Your task to perform on an android device: Google the capital of Chile Image 0: 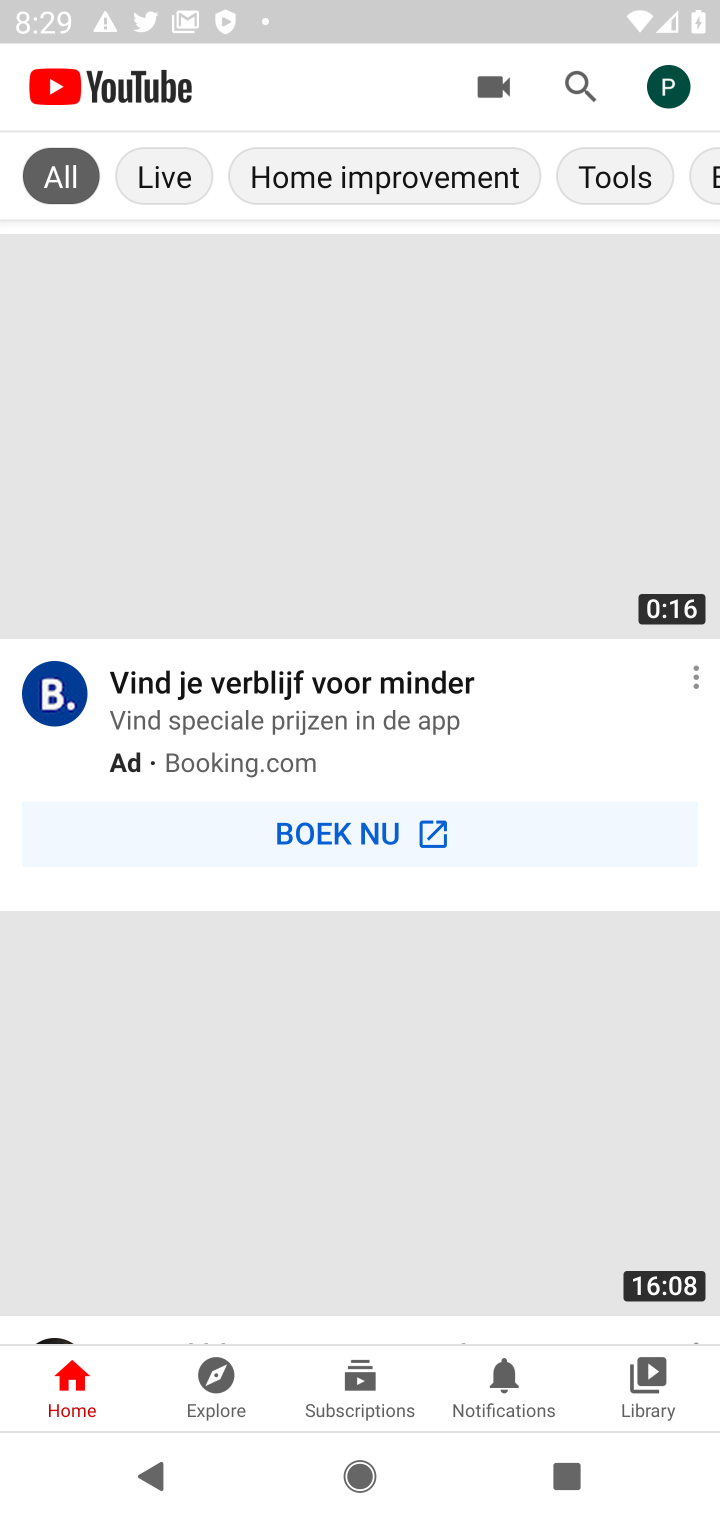
Step 0: press home button
Your task to perform on an android device: Google the capital of Chile Image 1: 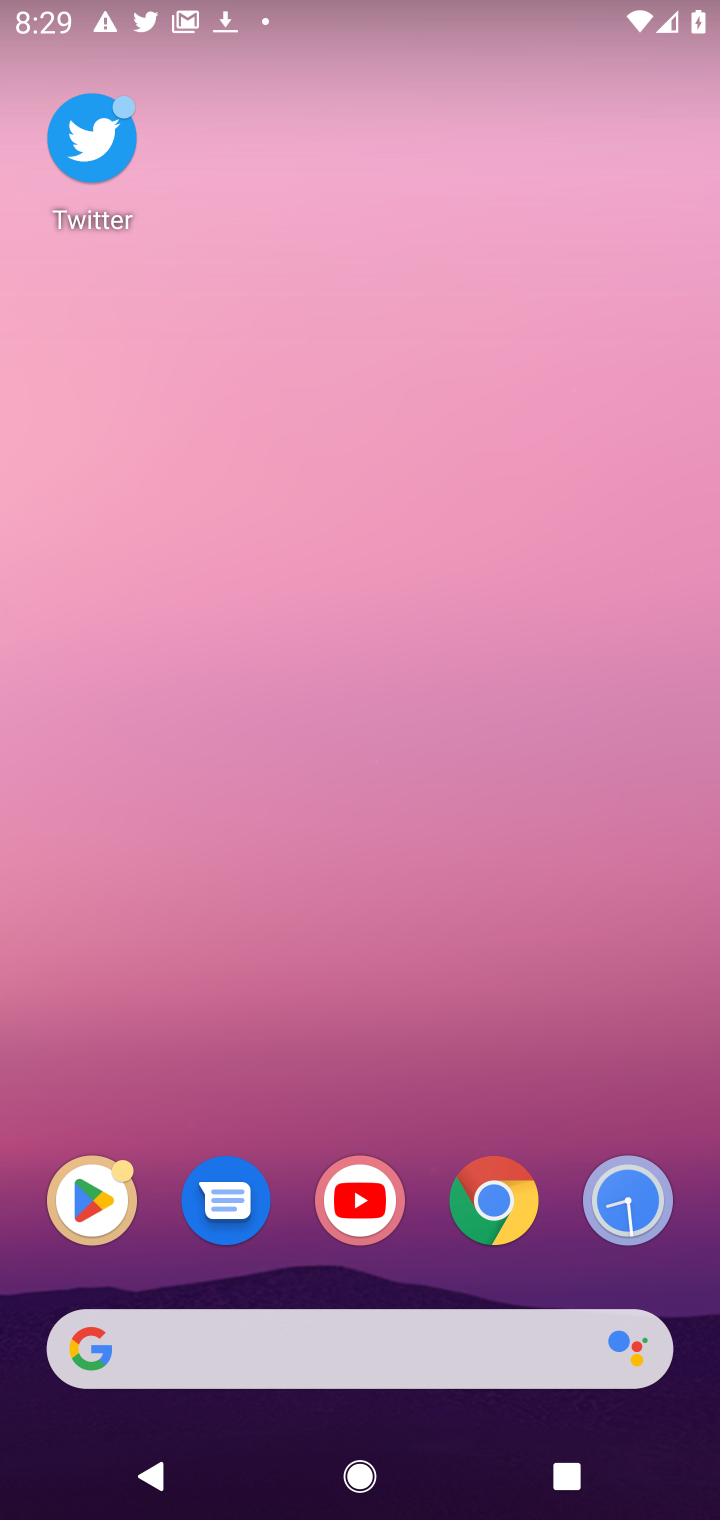
Step 1: click (505, 1200)
Your task to perform on an android device: Google the capital of Chile Image 2: 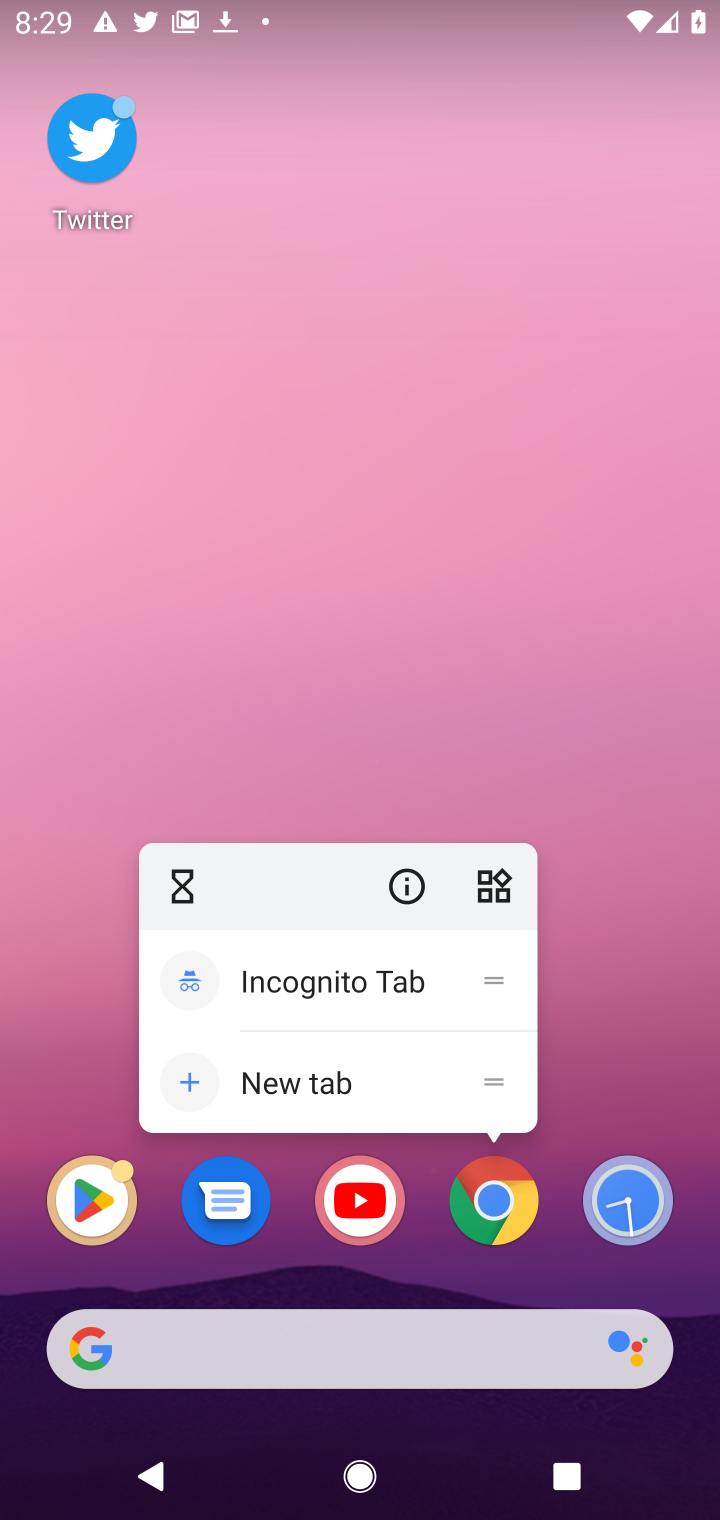
Step 2: click (505, 1200)
Your task to perform on an android device: Google the capital of Chile Image 3: 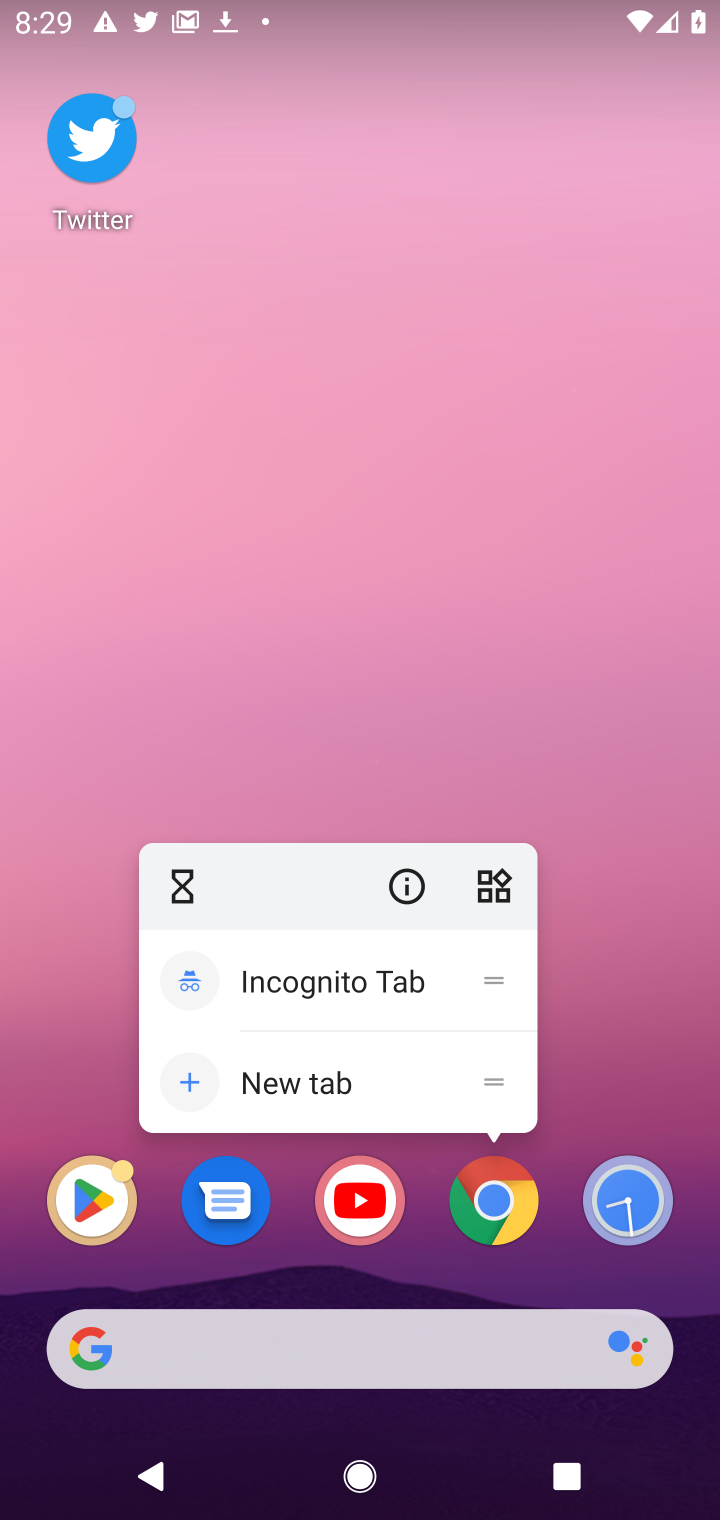
Step 3: click (505, 1198)
Your task to perform on an android device: Google the capital of Chile Image 4: 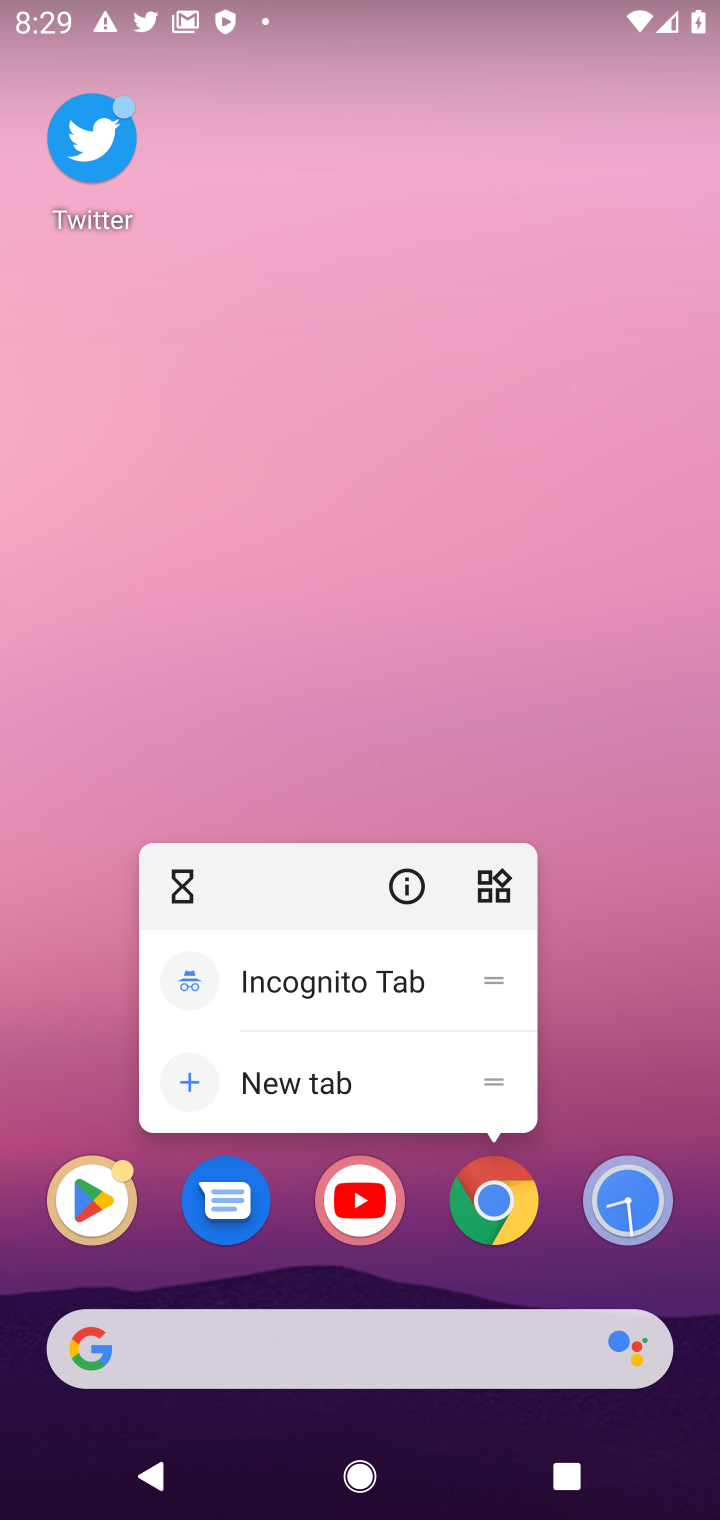
Step 4: click (293, 1081)
Your task to perform on an android device: Google the capital of Chile Image 5: 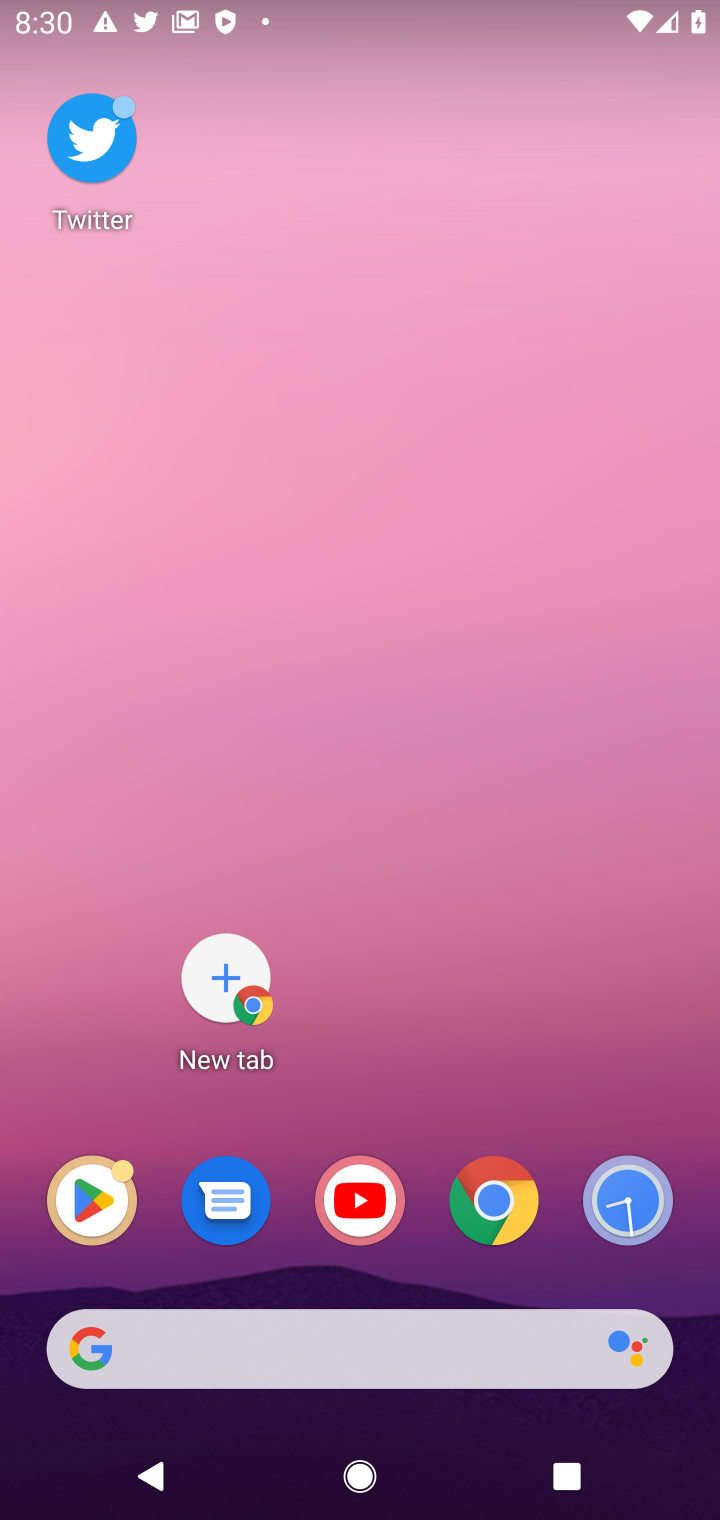
Step 5: click (228, 974)
Your task to perform on an android device: Google the capital of Chile Image 6: 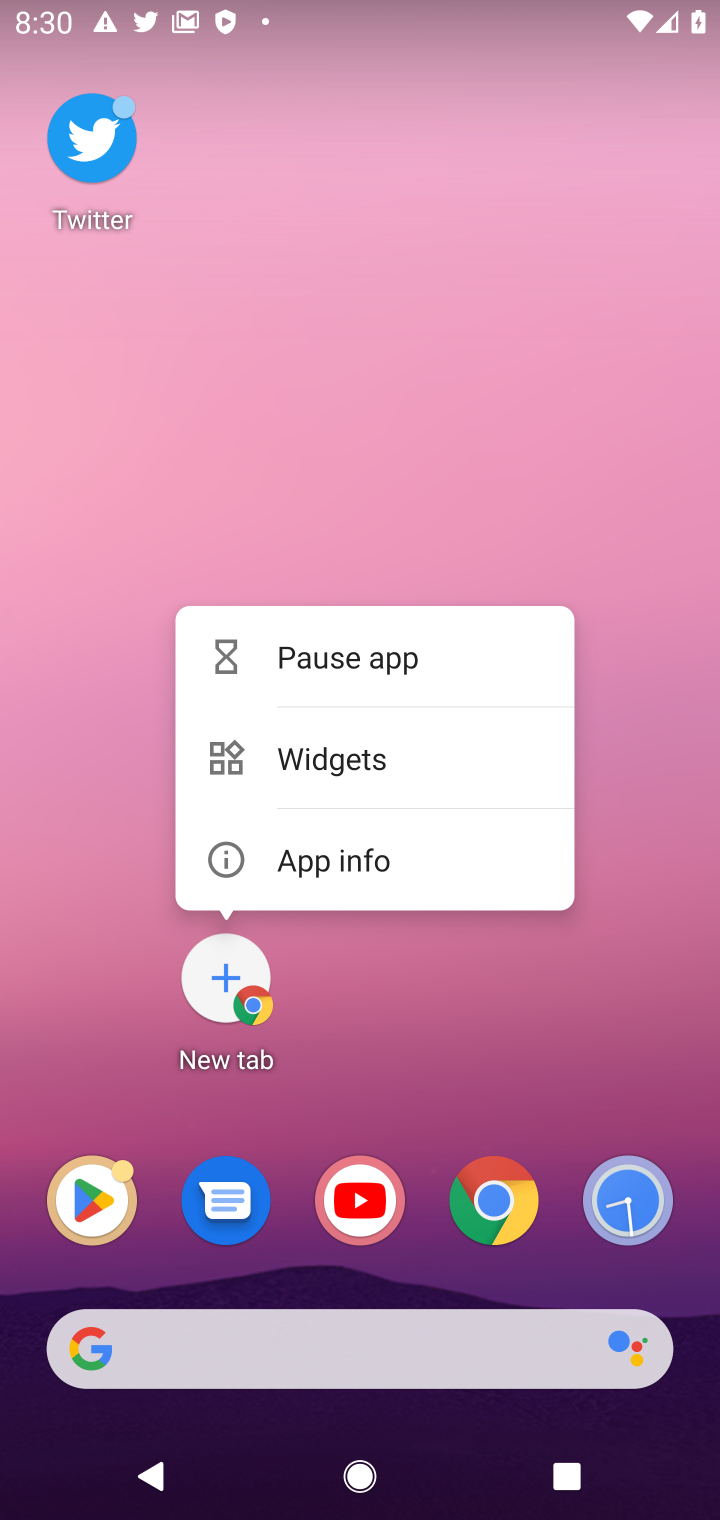
Step 6: click (679, 718)
Your task to perform on an android device: Google the capital of Chile Image 7: 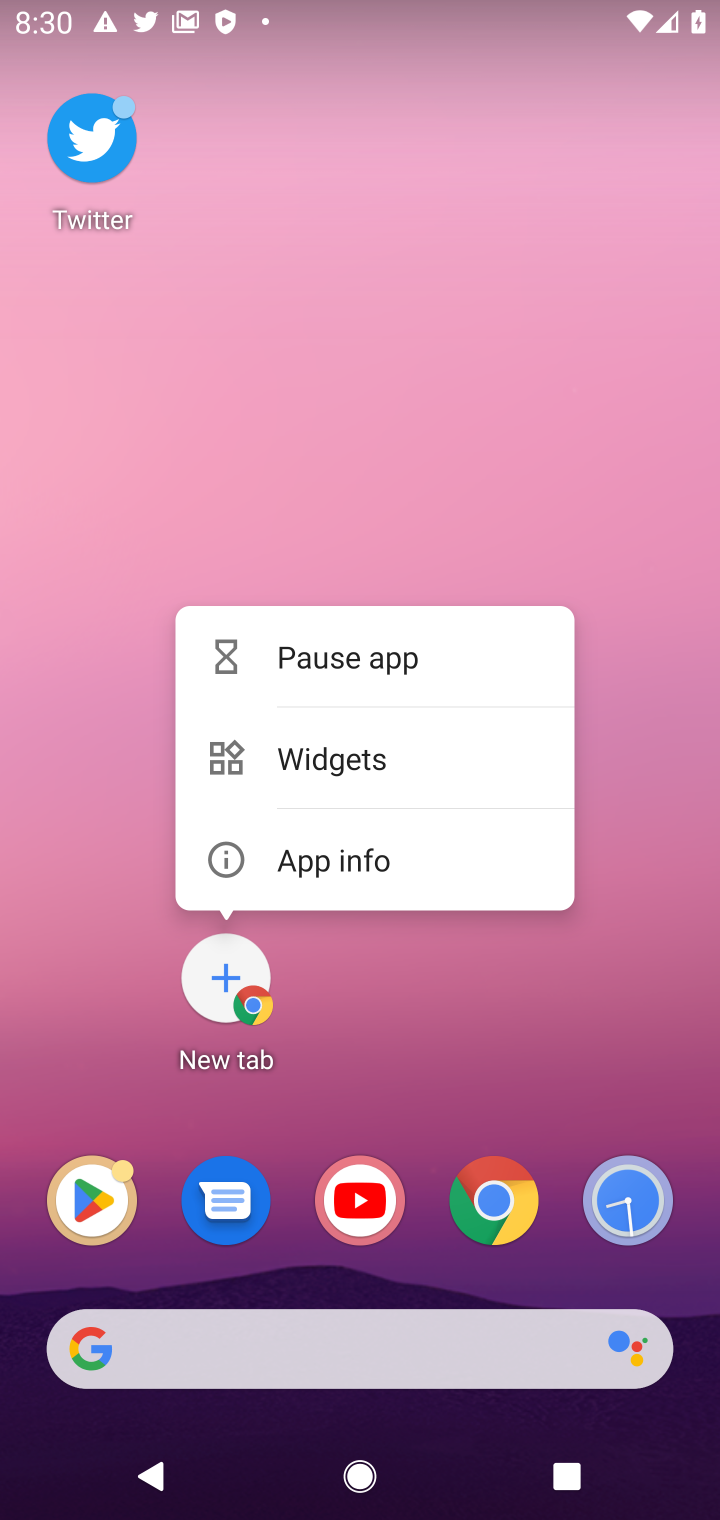
Step 7: click (510, 1194)
Your task to perform on an android device: Google the capital of Chile Image 8: 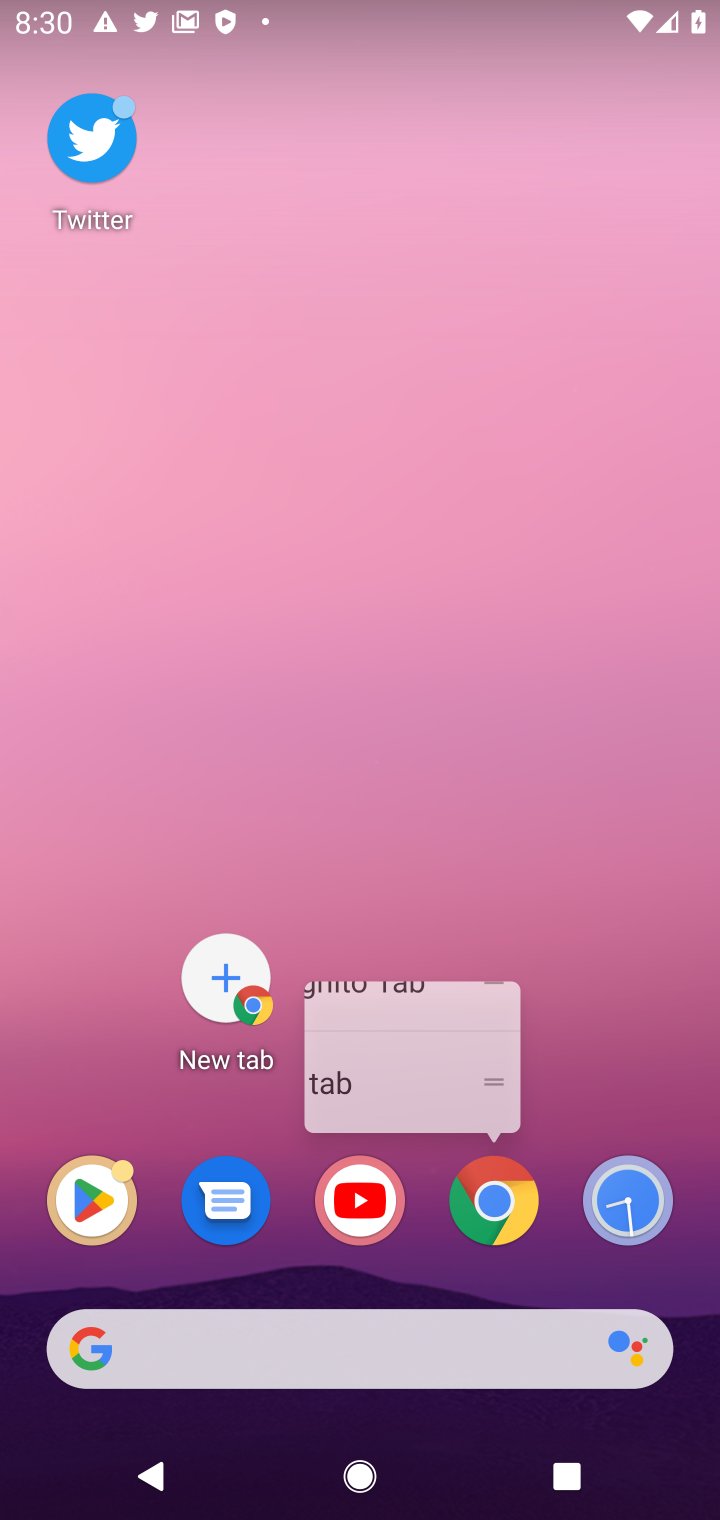
Step 8: click (501, 1206)
Your task to perform on an android device: Google the capital of Chile Image 9: 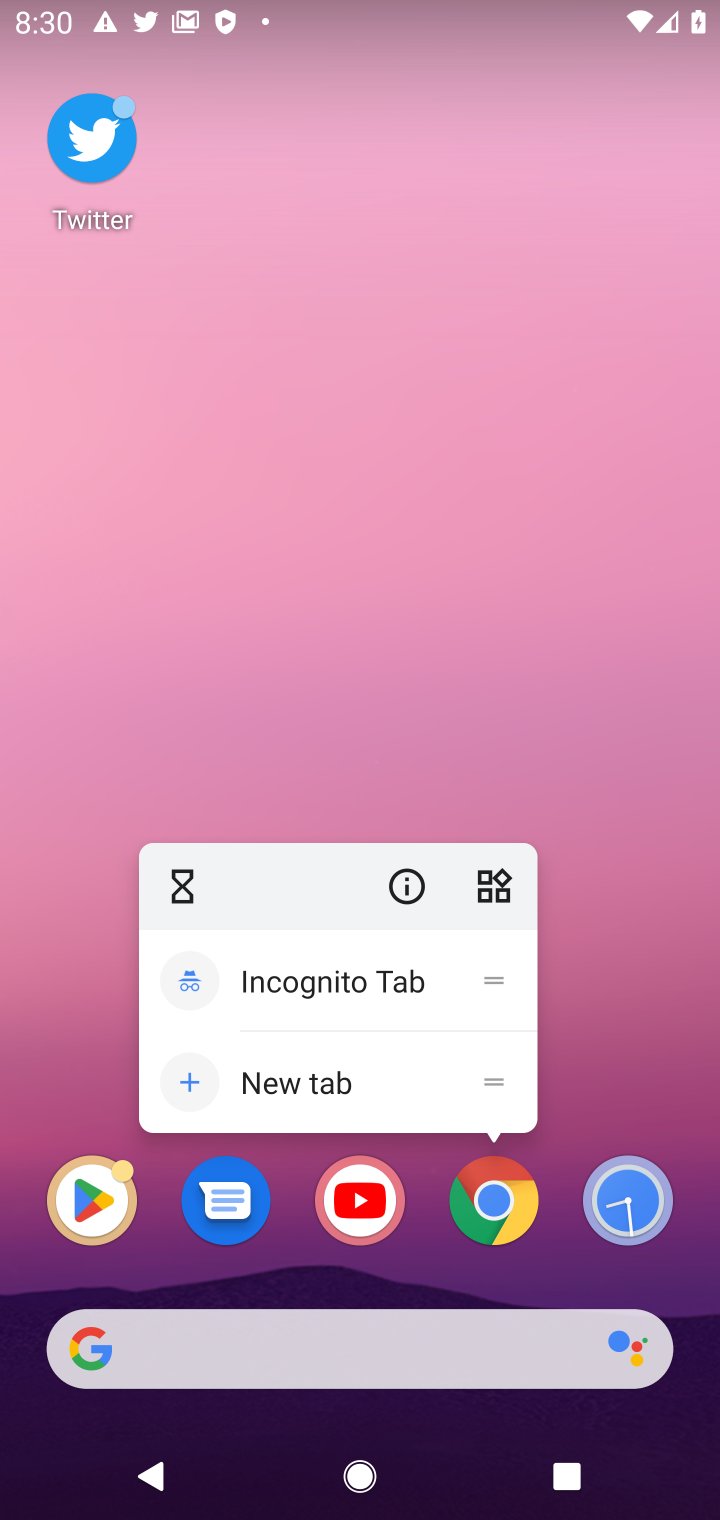
Step 9: drag from (361, 1303) to (468, 522)
Your task to perform on an android device: Google the capital of Chile Image 10: 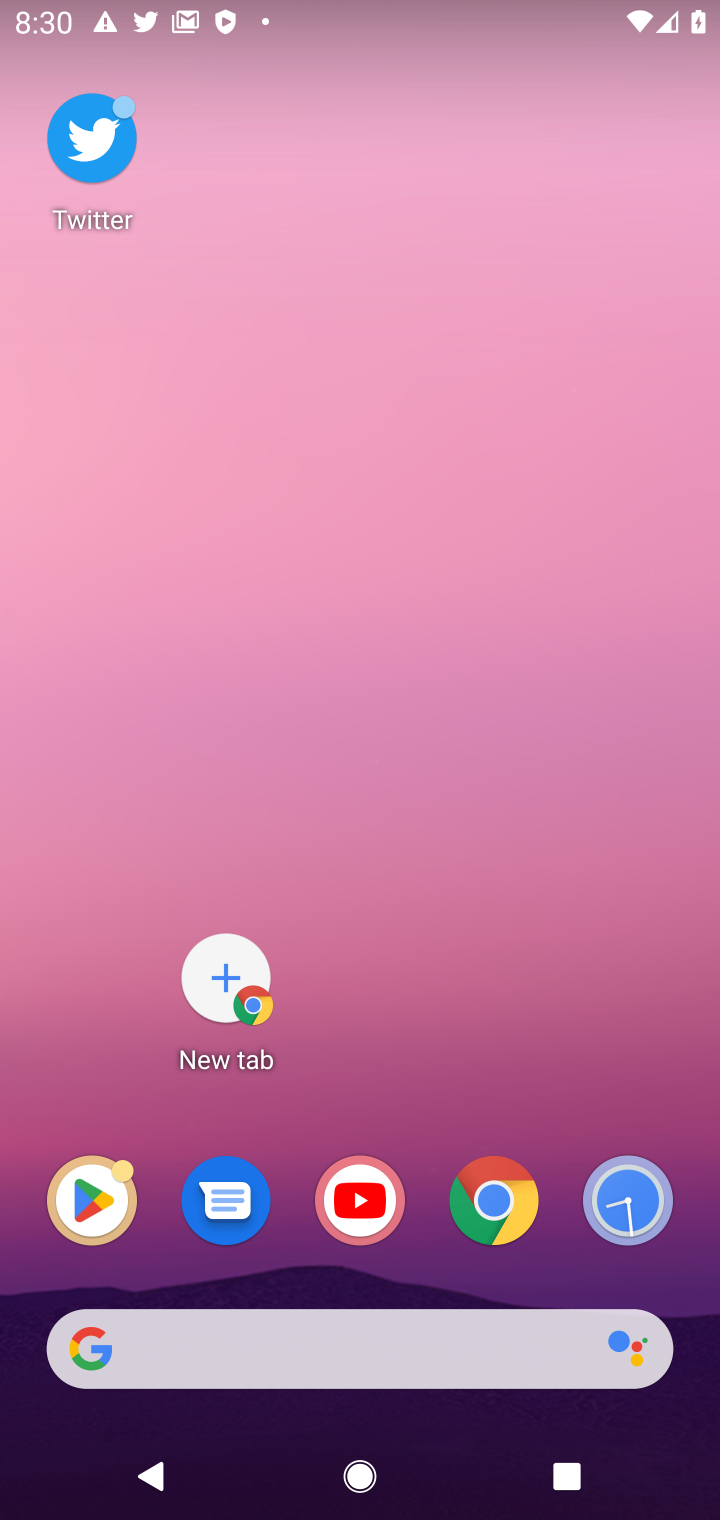
Step 10: click (500, 1190)
Your task to perform on an android device: Google the capital of Chile Image 11: 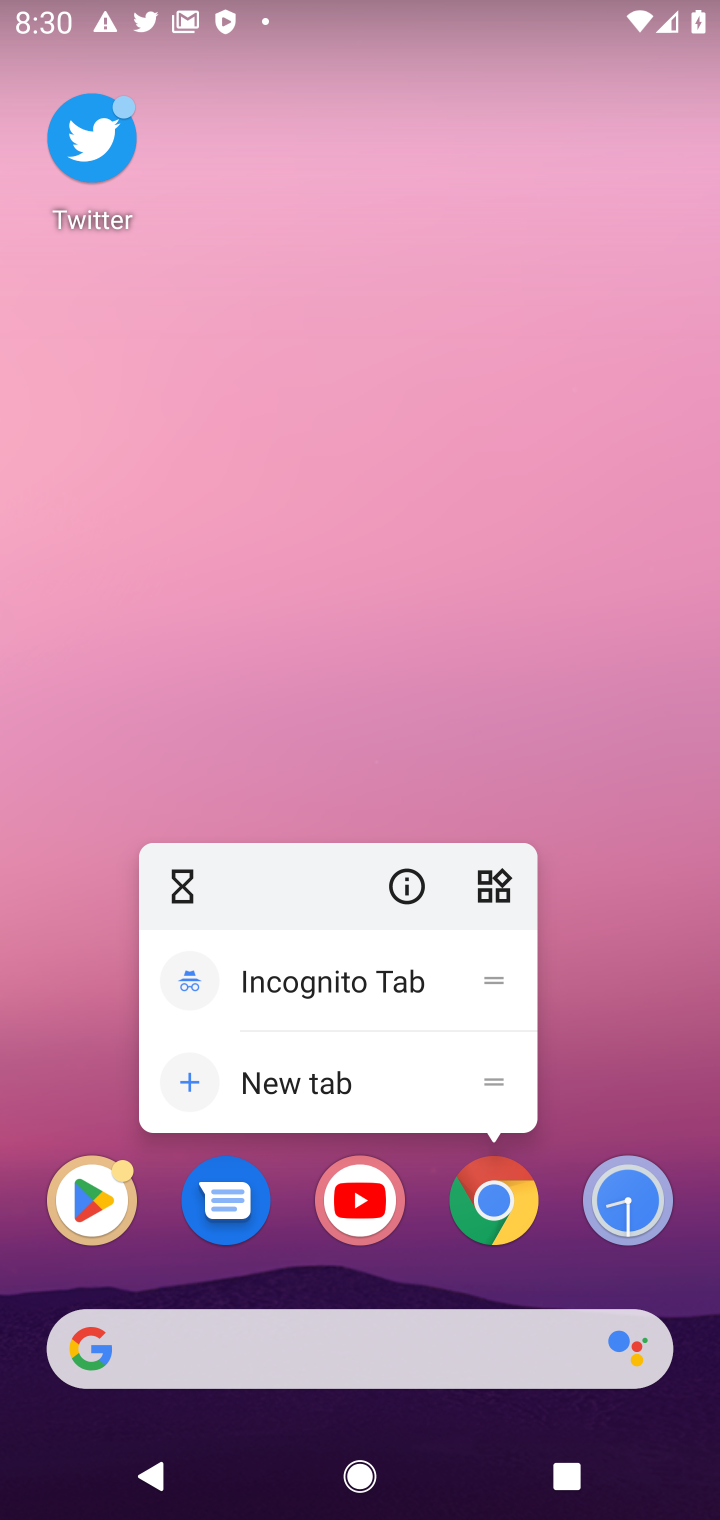
Step 11: click (538, 584)
Your task to perform on an android device: Google the capital of Chile Image 12: 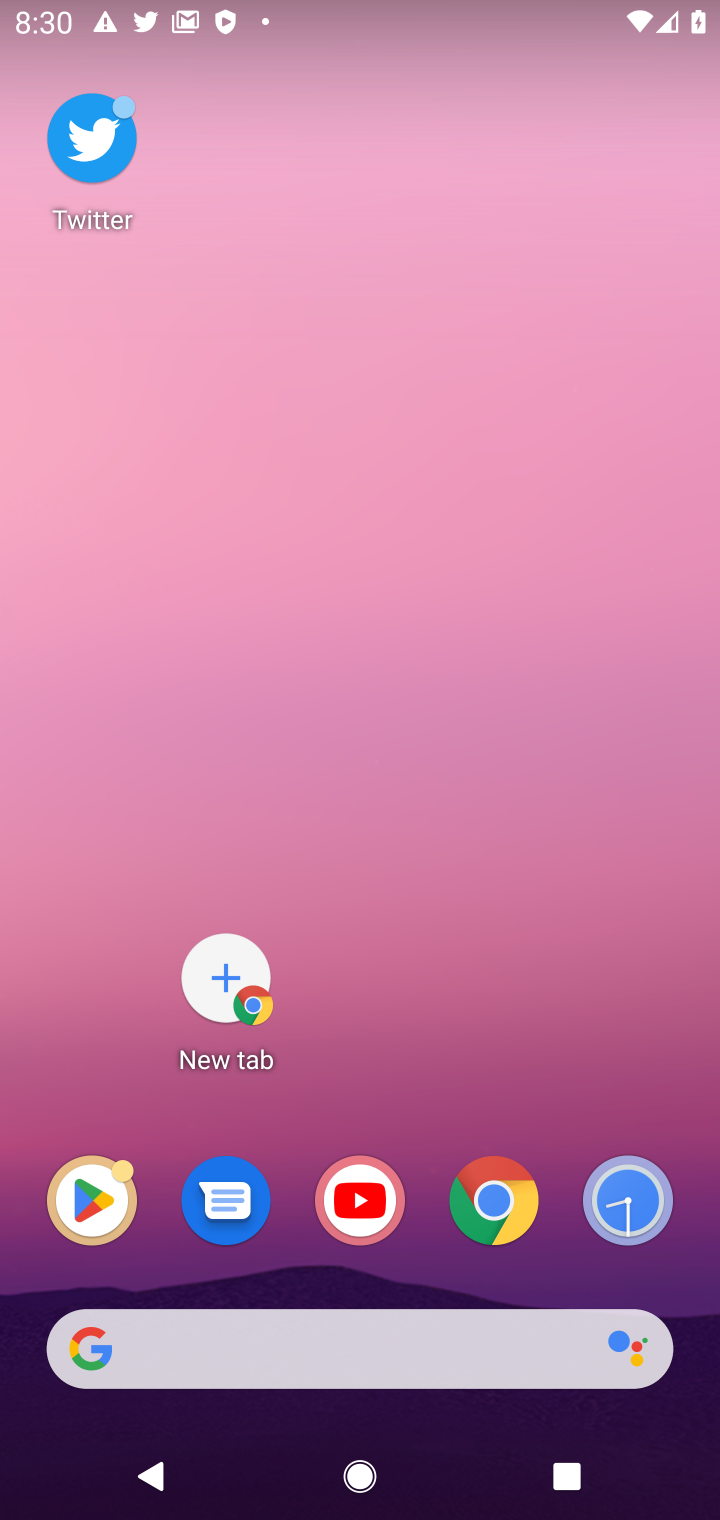
Step 12: click (516, 1191)
Your task to perform on an android device: Google the capital of Chile Image 13: 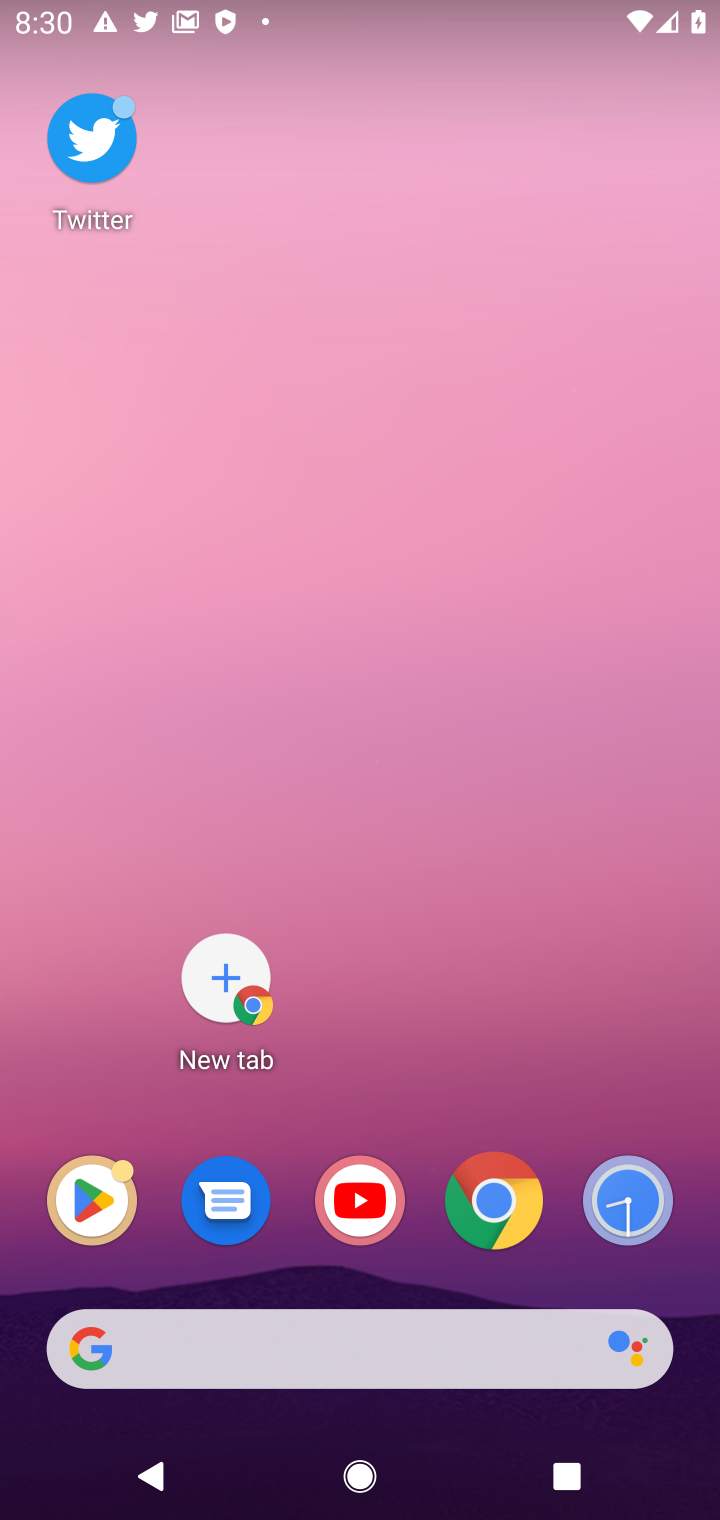
Step 13: click (516, 1191)
Your task to perform on an android device: Google the capital of Chile Image 14: 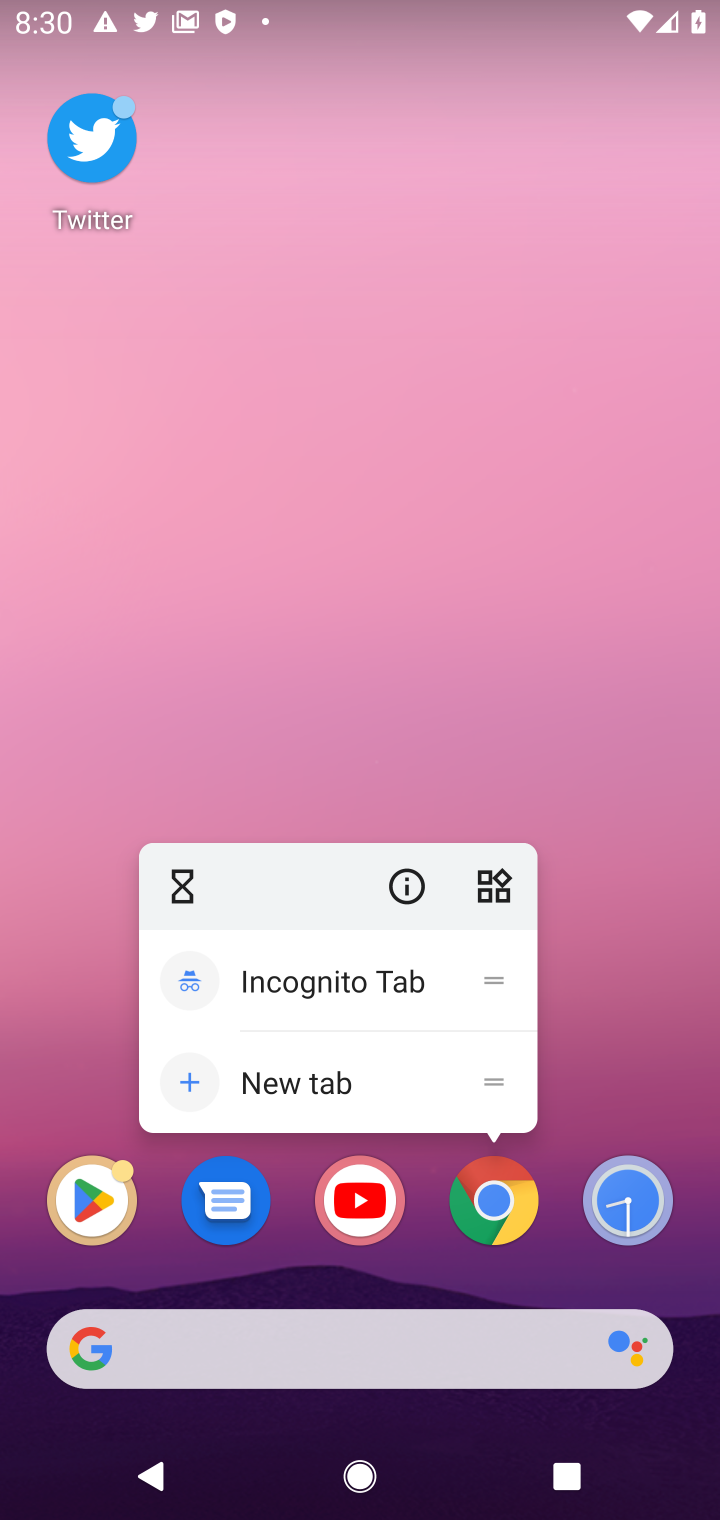
Step 14: click (492, 1190)
Your task to perform on an android device: Google the capital of Chile Image 15: 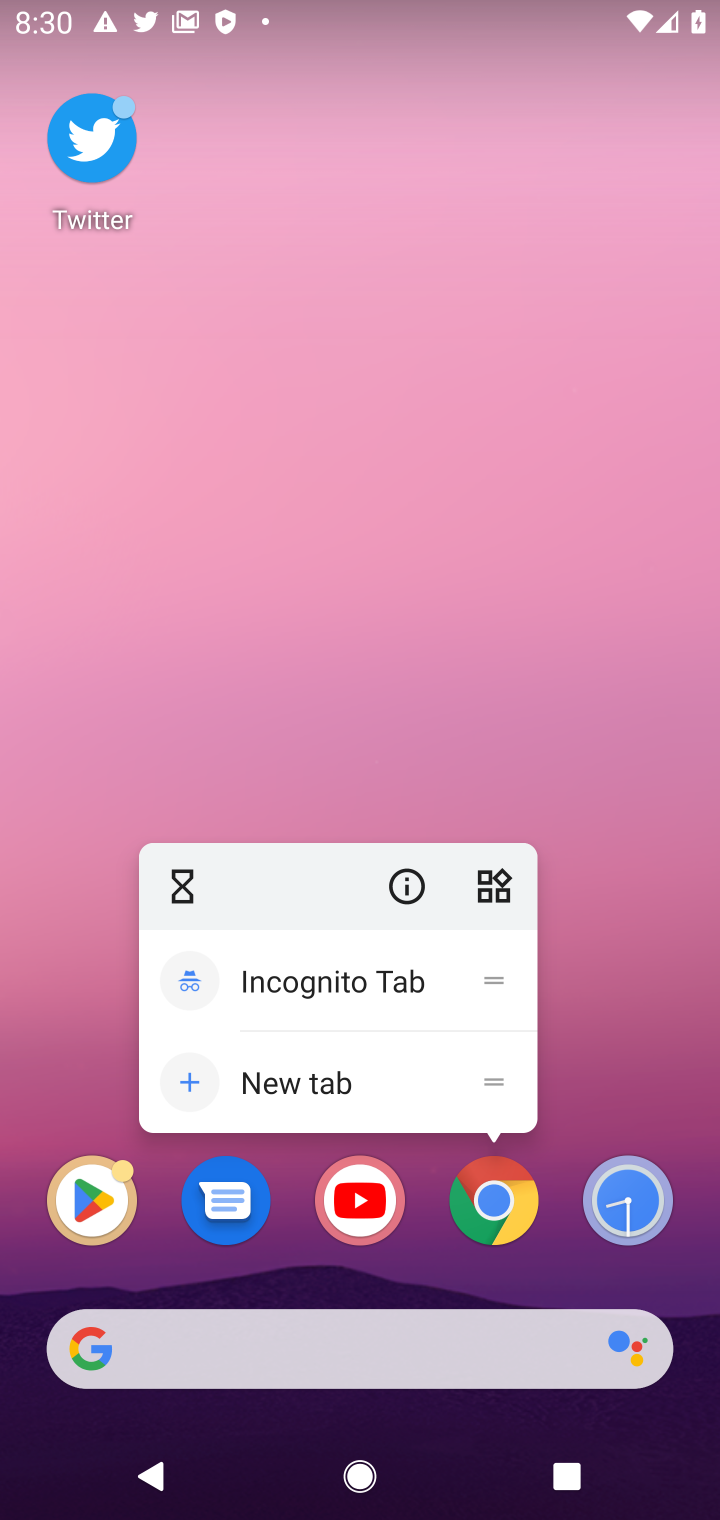
Step 15: click (684, 932)
Your task to perform on an android device: Google the capital of Chile Image 16: 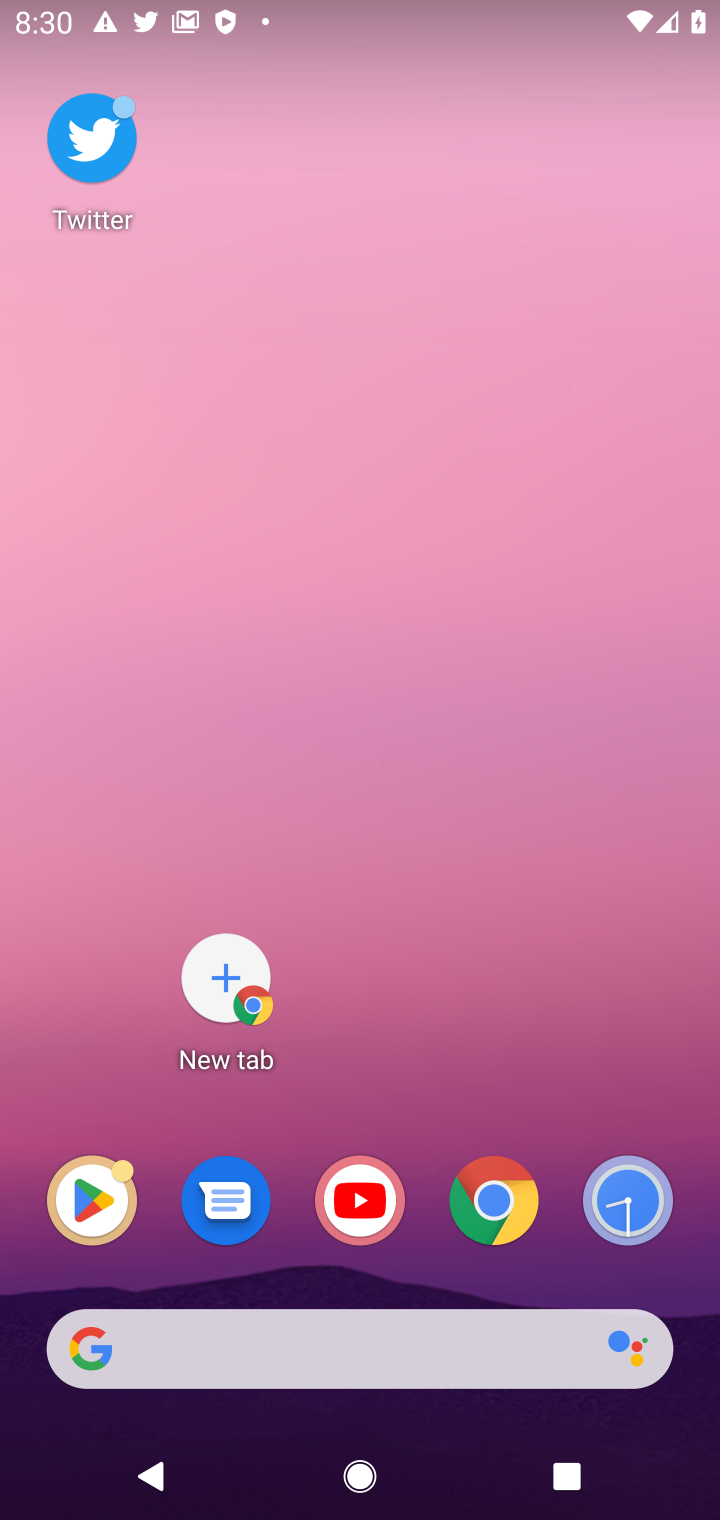
Step 16: click (482, 1209)
Your task to perform on an android device: Google the capital of Chile Image 17: 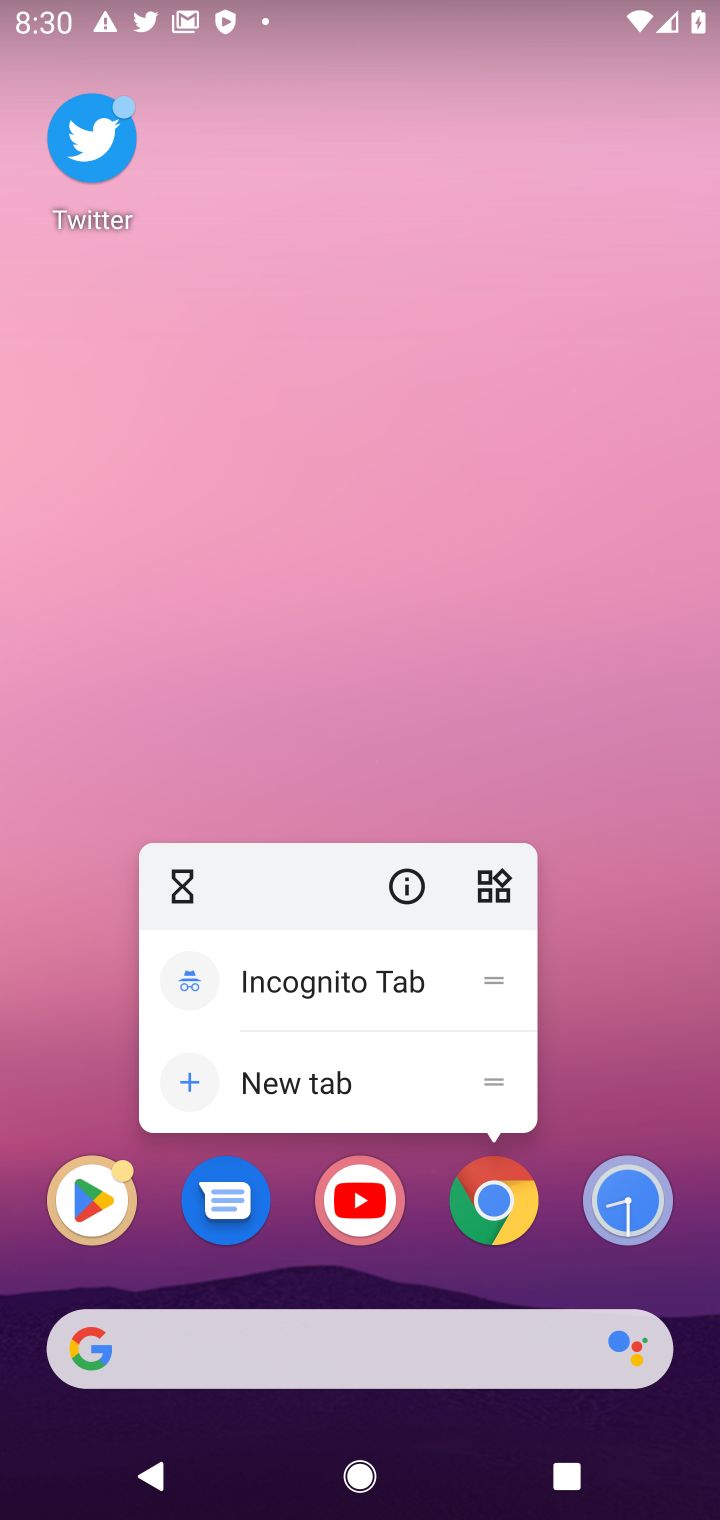
Step 17: click (487, 1202)
Your task to perform on an android device: Google the capital of Chile Image 18: 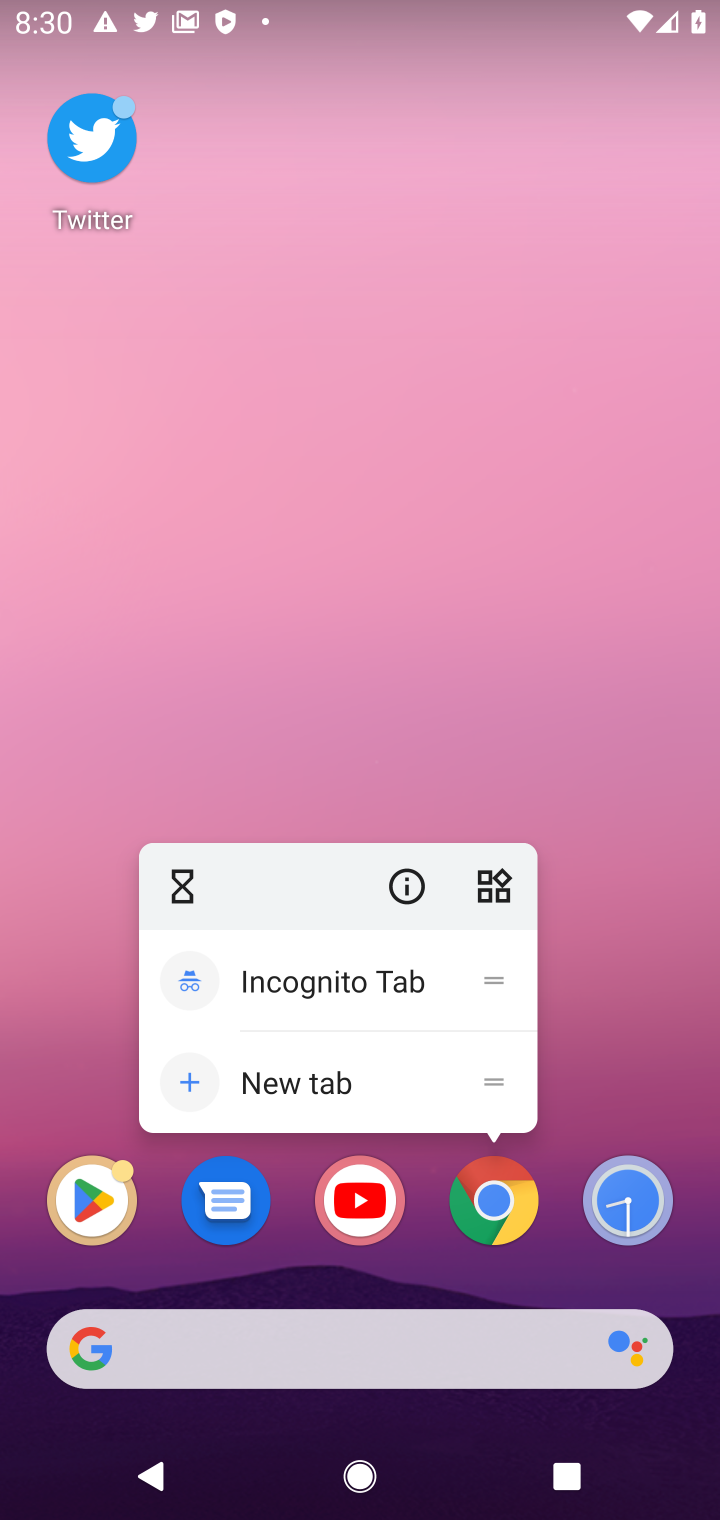
Step 18: click (301, 1082)
Your task to perform on an android device: Google the capital of Chile Image 19: 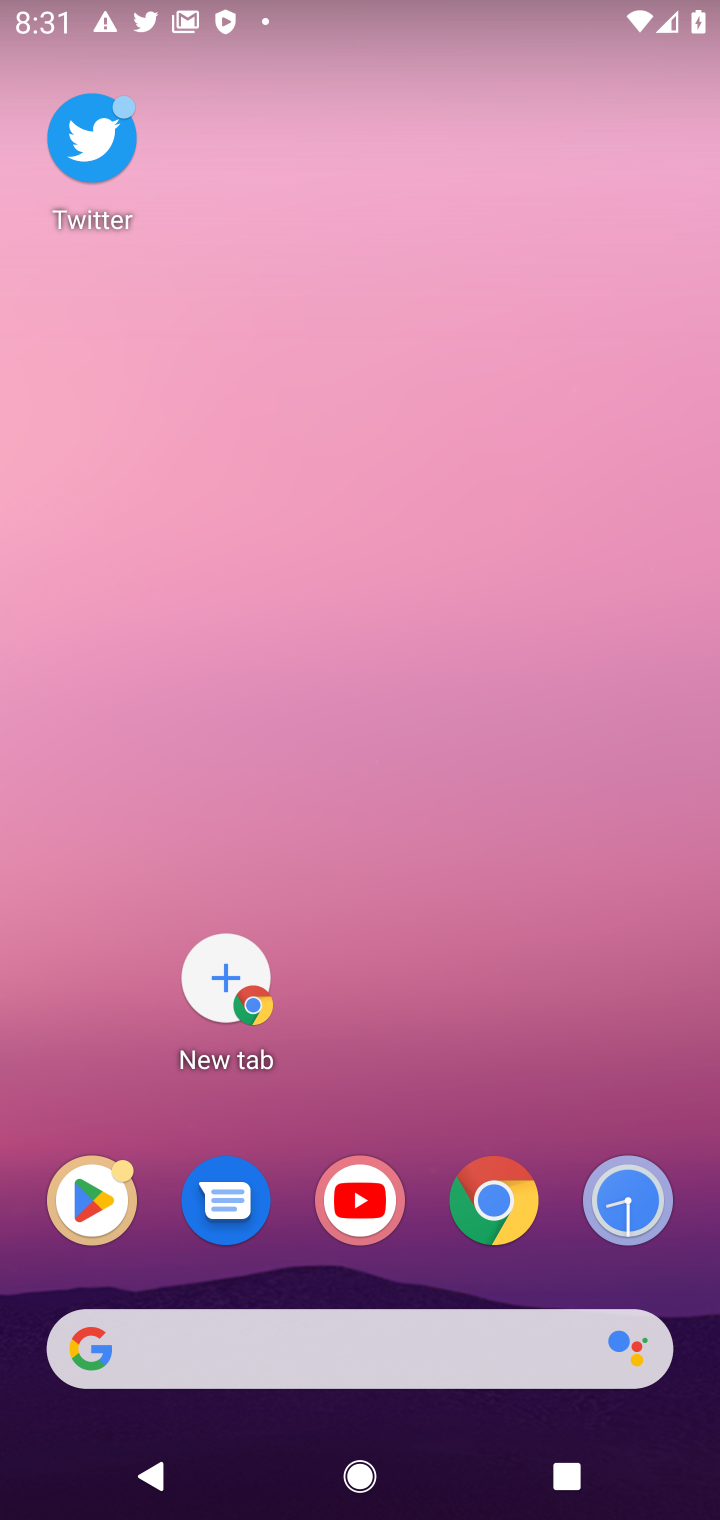
Step 19: click (482, 1195)
Your task to perform on an android device: Google the capital of Chile Image 20: 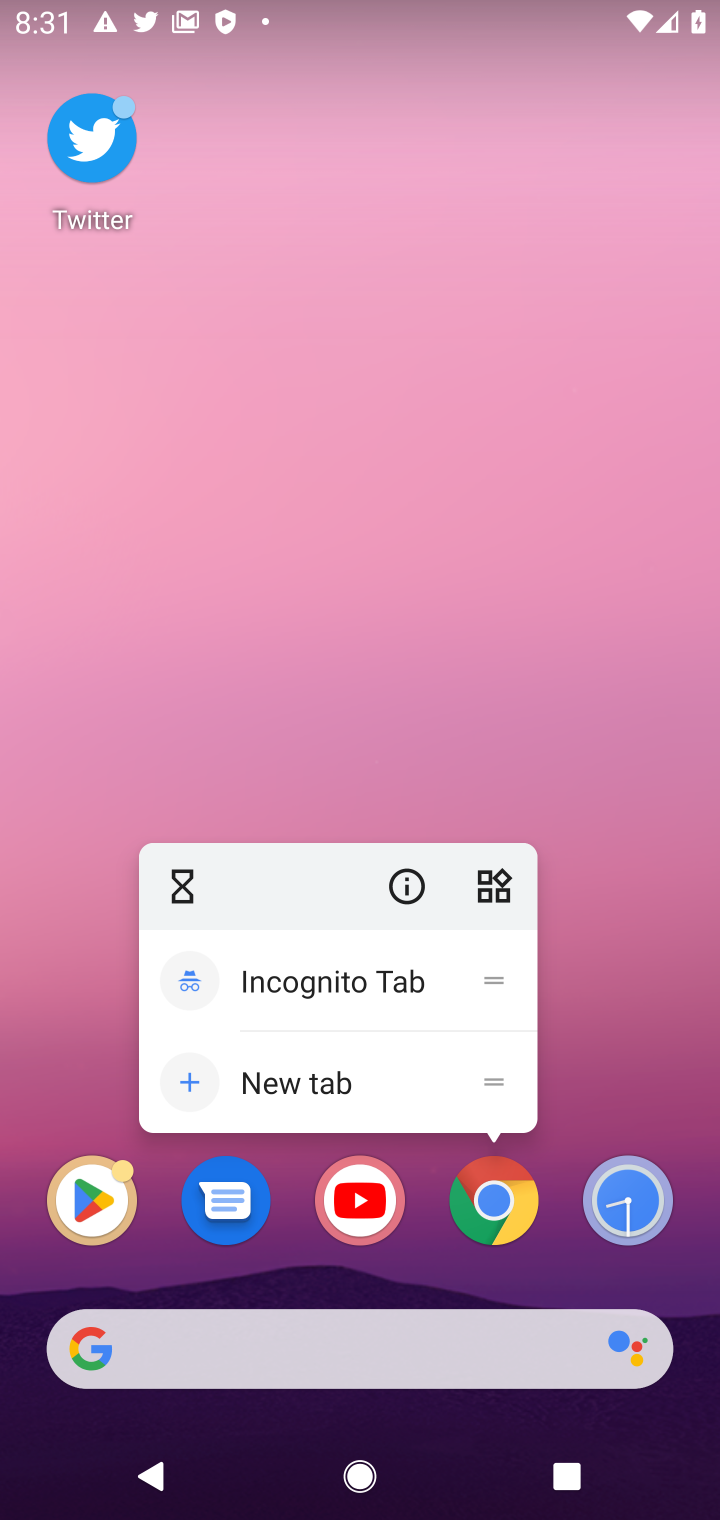
Step 20: click (184, 1079)
Your task to perform on an android device: Google the capital of Chile Image 21: 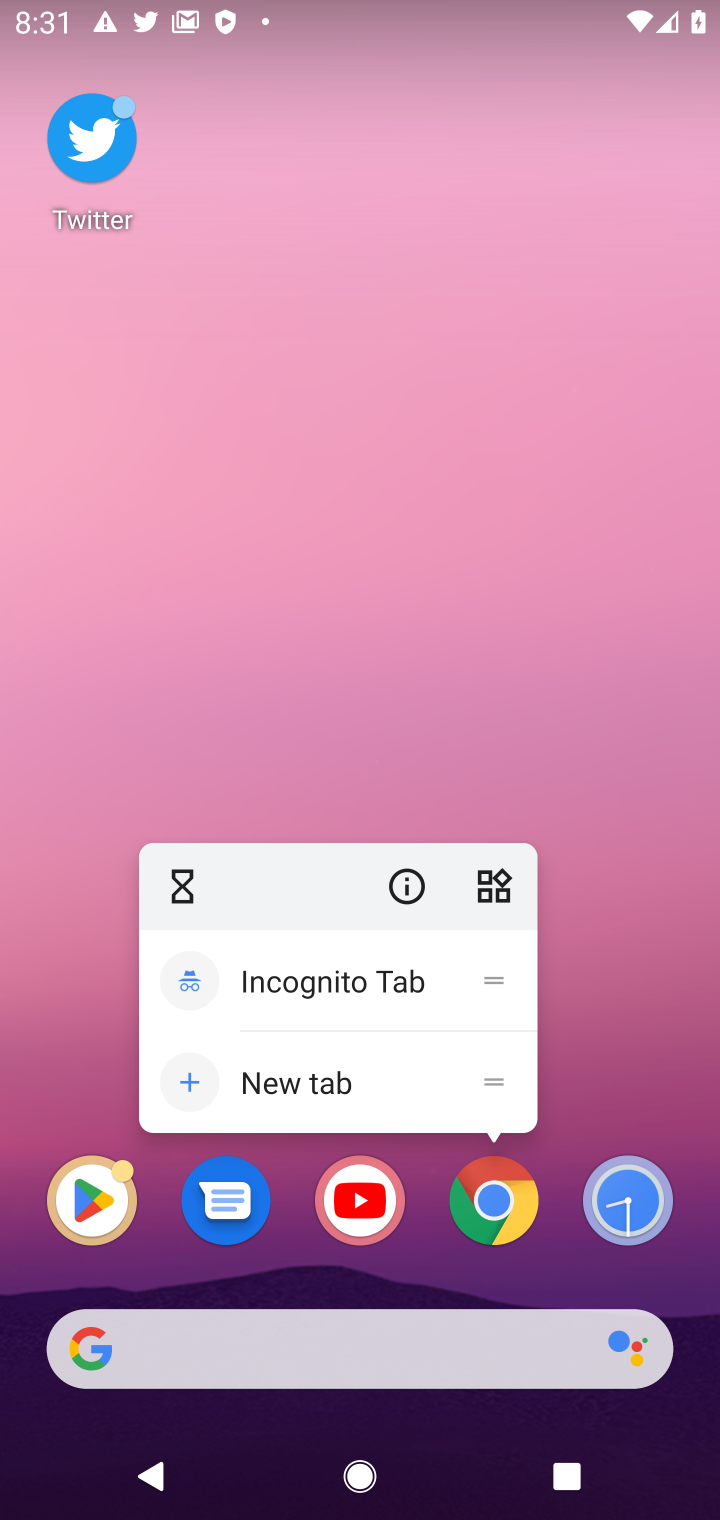
Step 21: click (190, 1087)
Your task to perform on an android device: Google the capital of Chile Image 22: 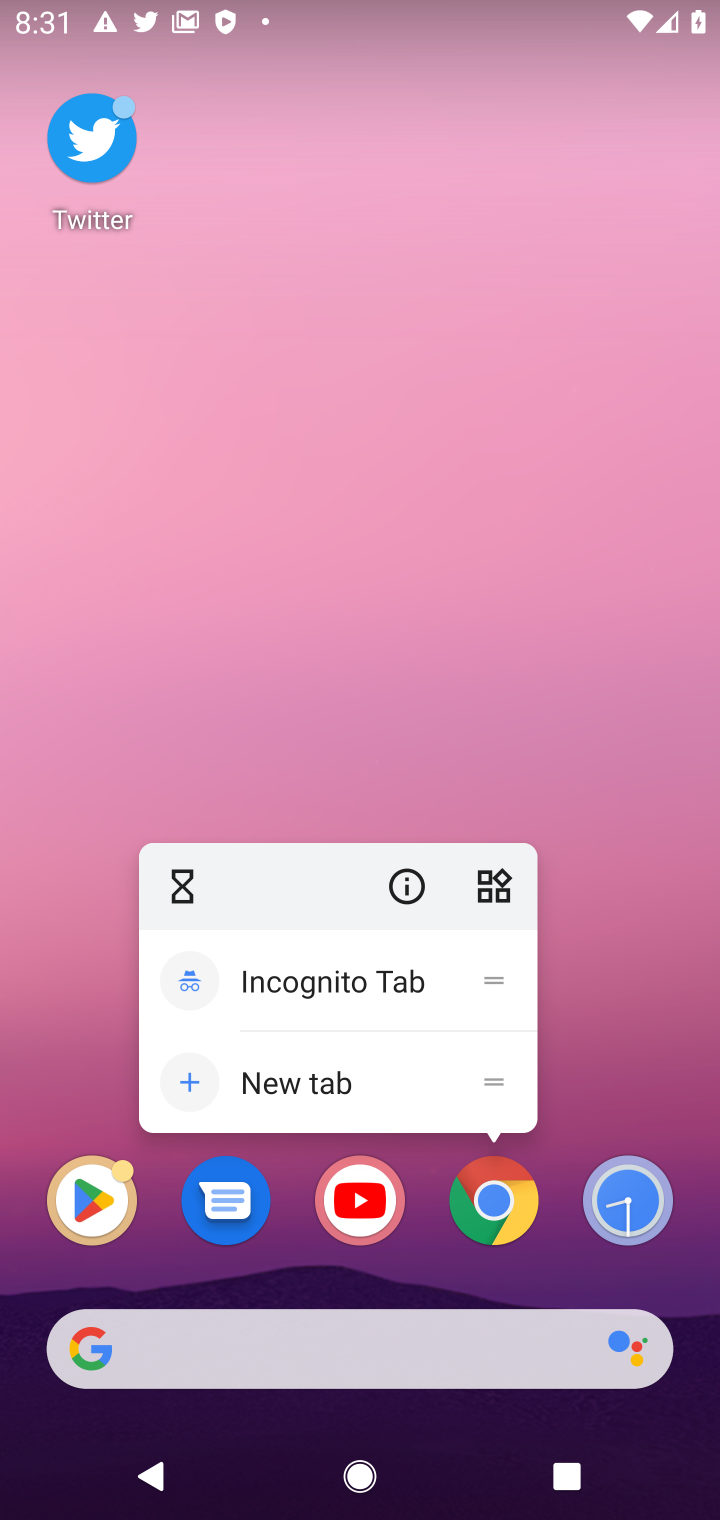
Step 22: click (484, 1220)
Your task to perform on an android device: Google the capital of Chile Image 23: 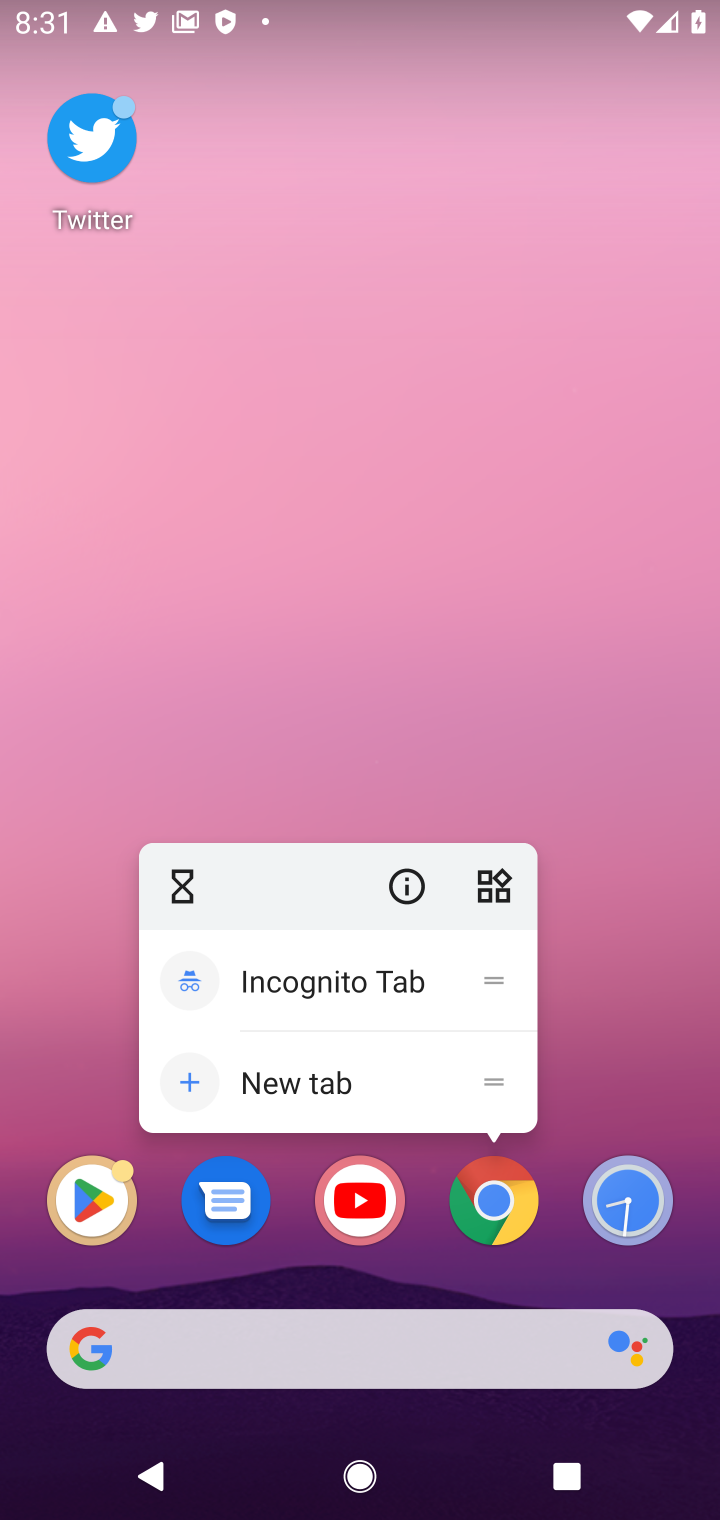
Step 23: drag from (528, 293) to (679, 752)
Your task to perform on an android device: Google the capital of Chile Image 24: 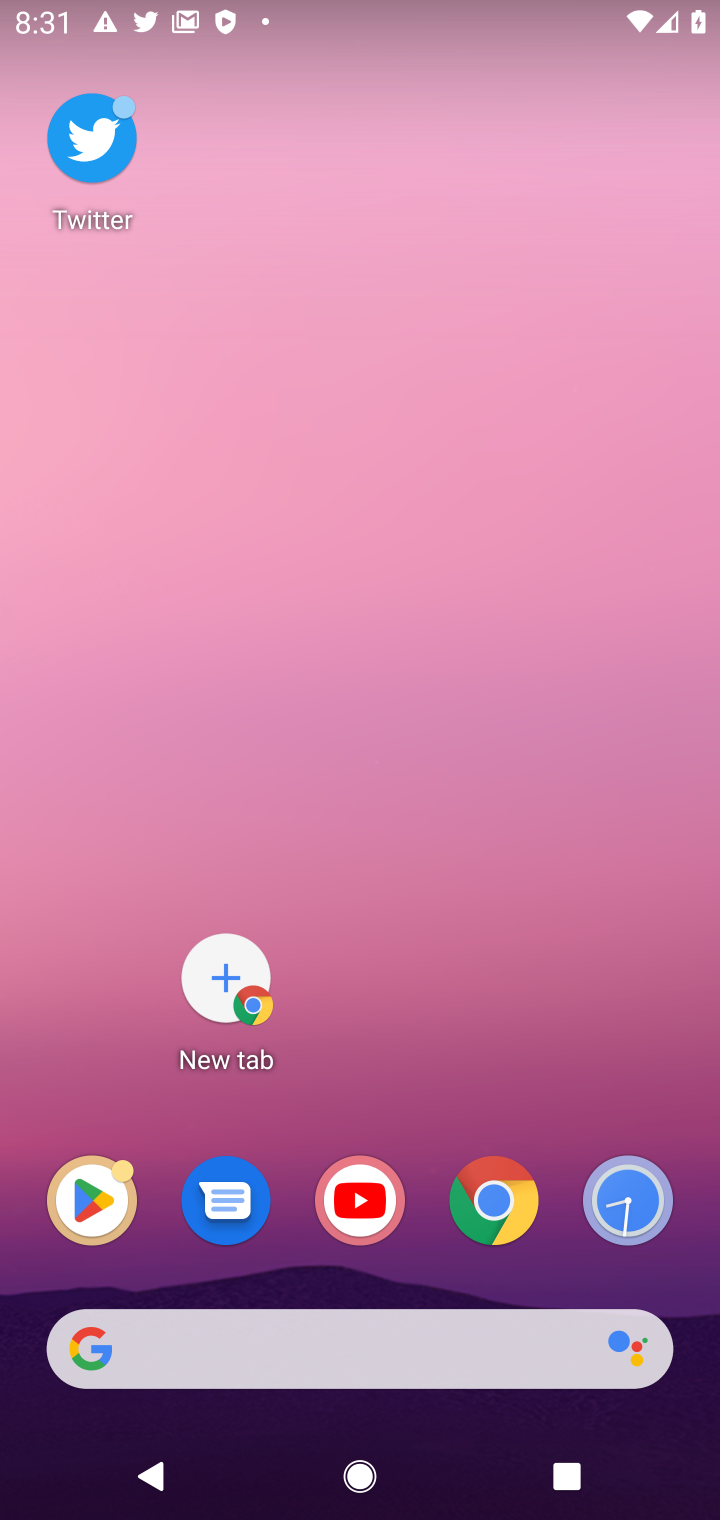
Step 24: click (515, 1189)
Your task to perform on an android device: Google the capital of Chile Image 25: 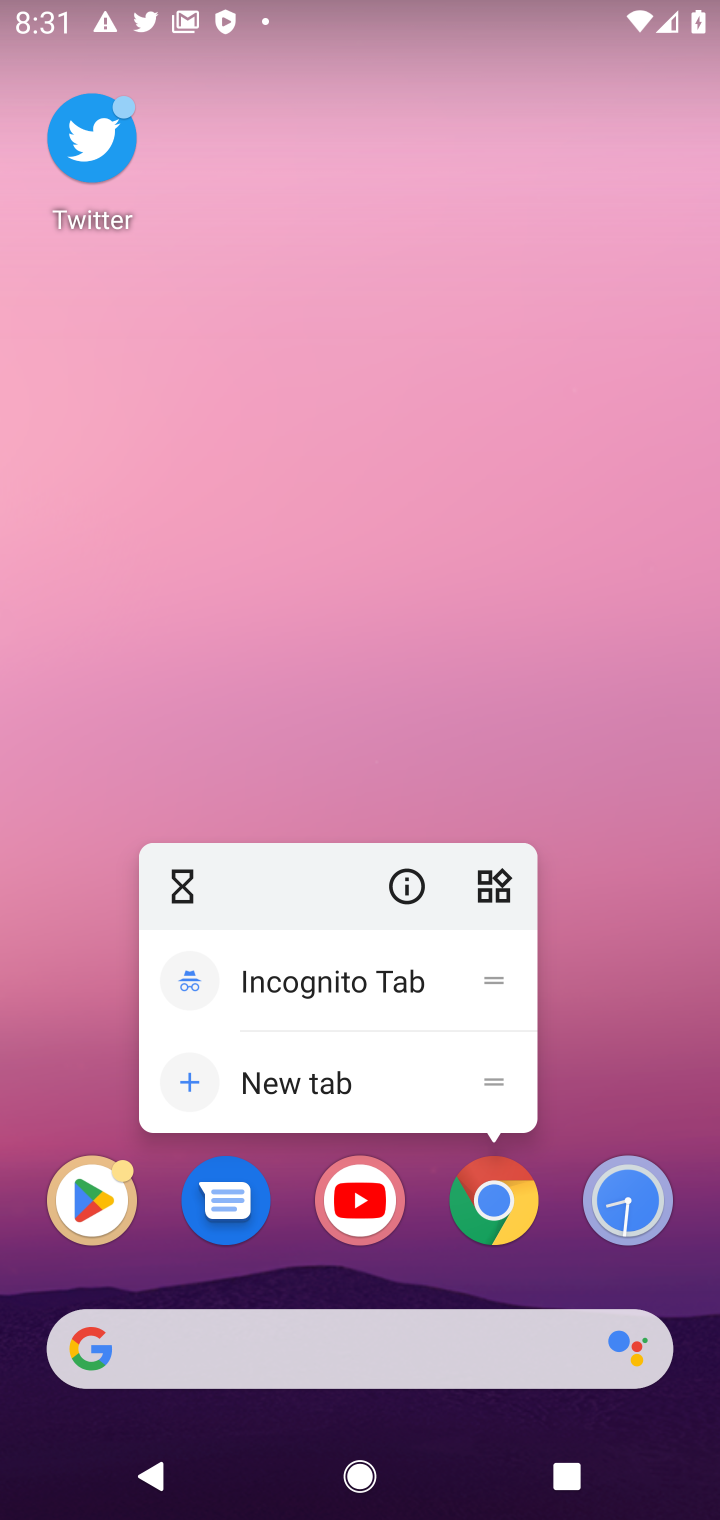
Step 25: click (283, 1098)
Your task to perform on an android device: Google the capital of Chile Image 26: 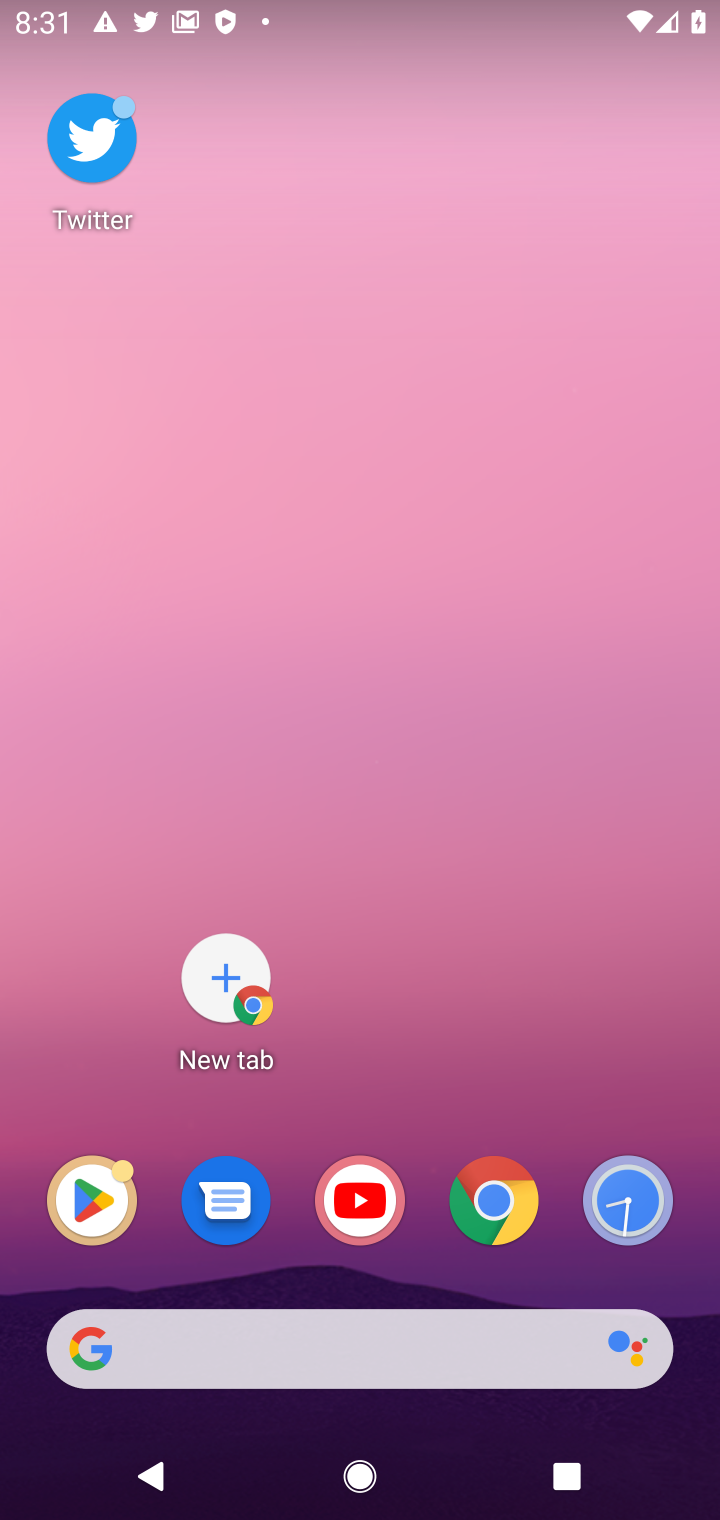
Step 26: click (475, 1233)
Your task to perform on an android device: Google the capital of Chile Image 27: 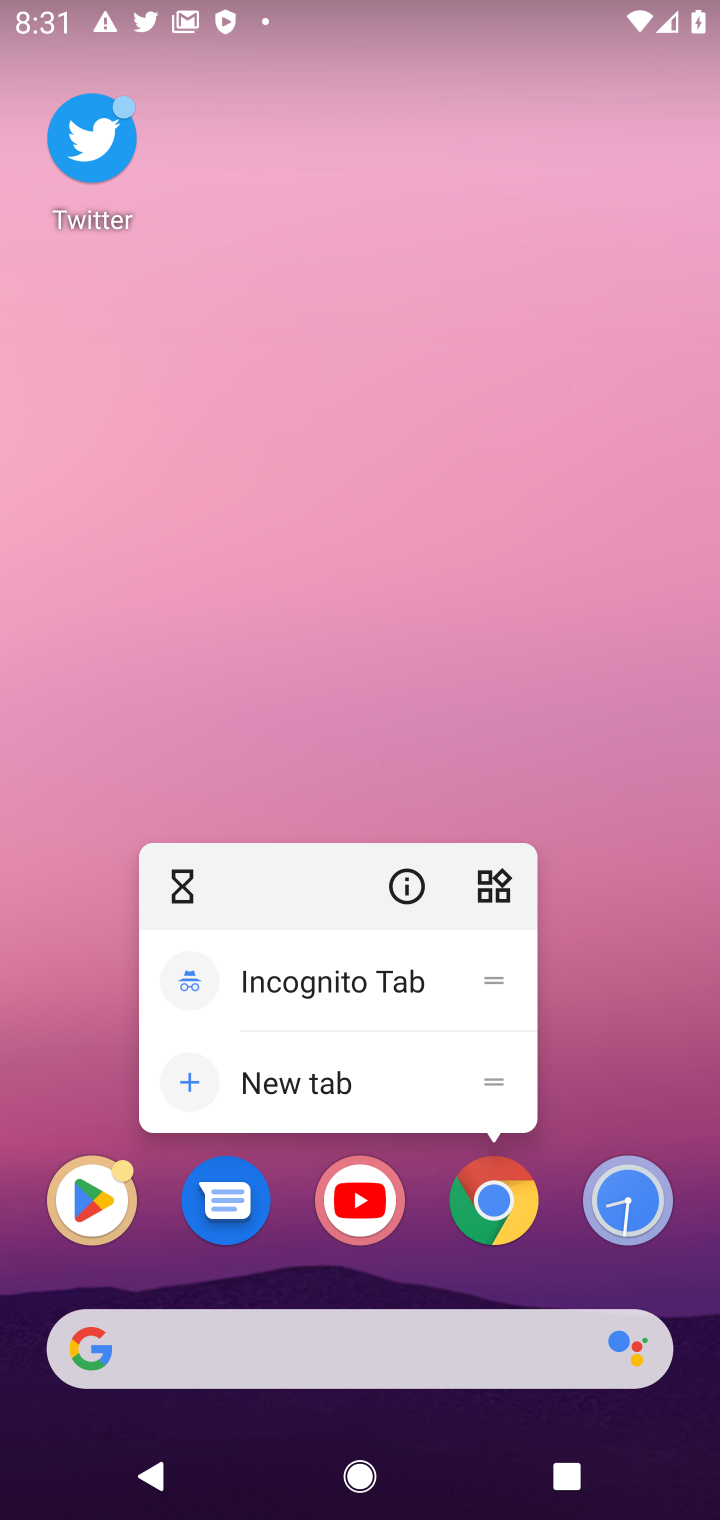
Step 27: press back button
Your task to perform on an android device: Google the capital of Chile Image 28: 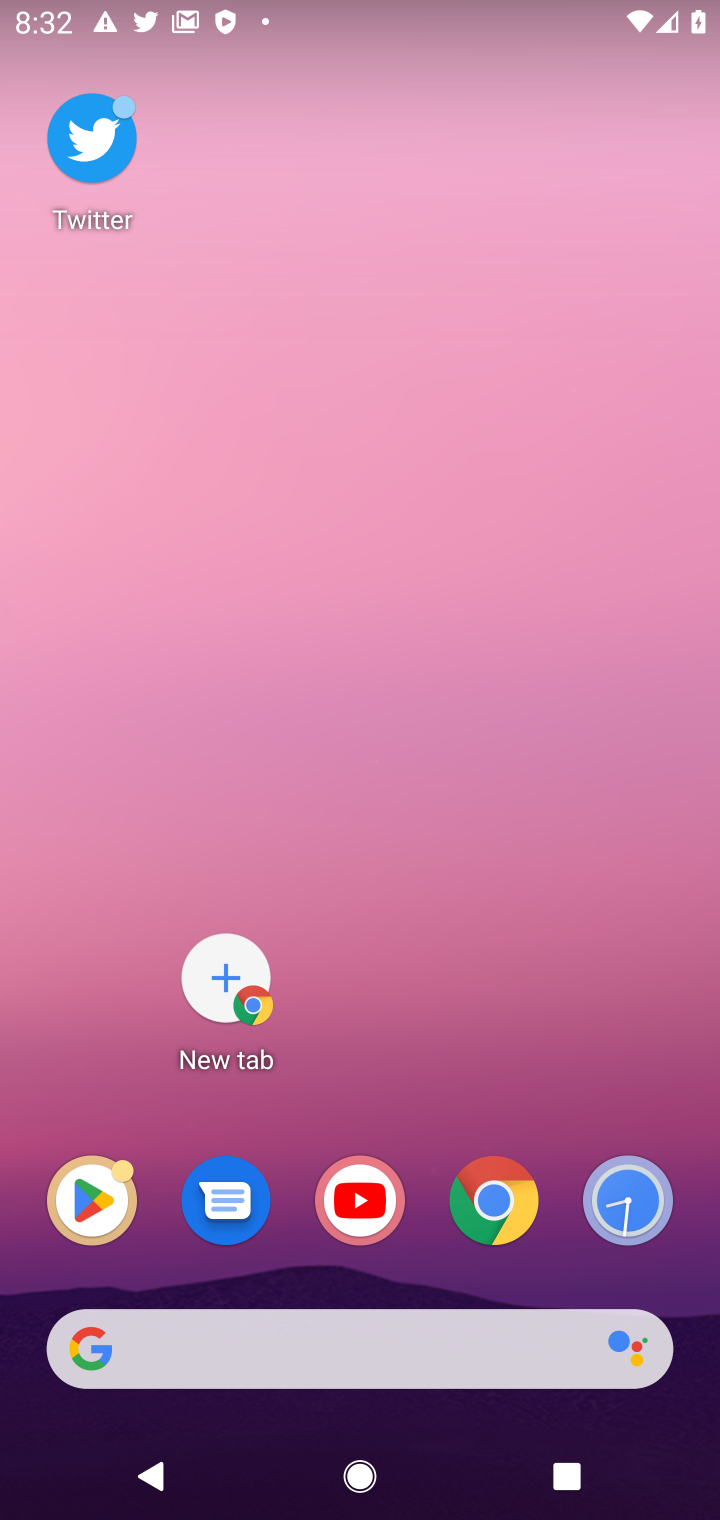
Step 28: click (479, 1187)
Your task to perform on an android device: Google the capital of Chile Image 29: 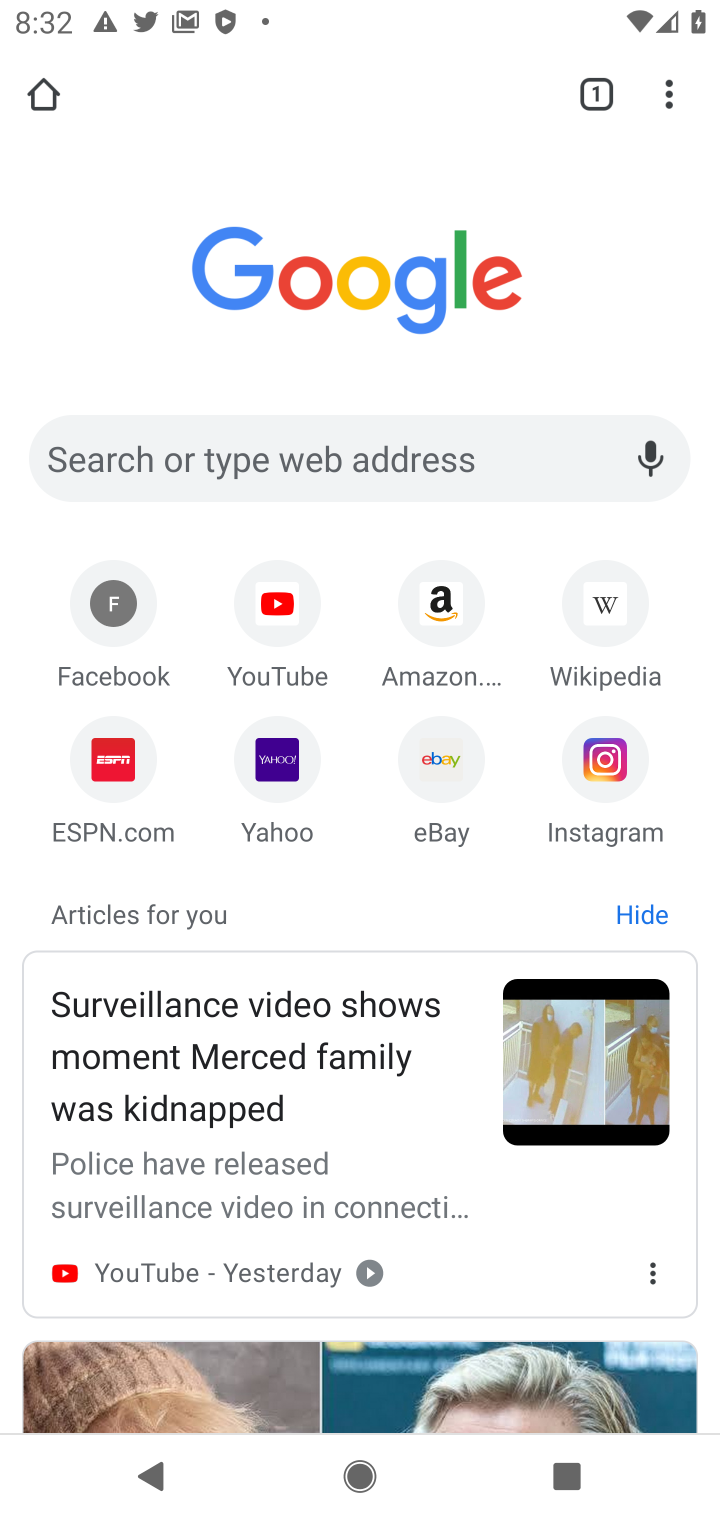
Step 29: click (319, 441)
Your task to perform on an android device: Google the capital of Chile Image 30: 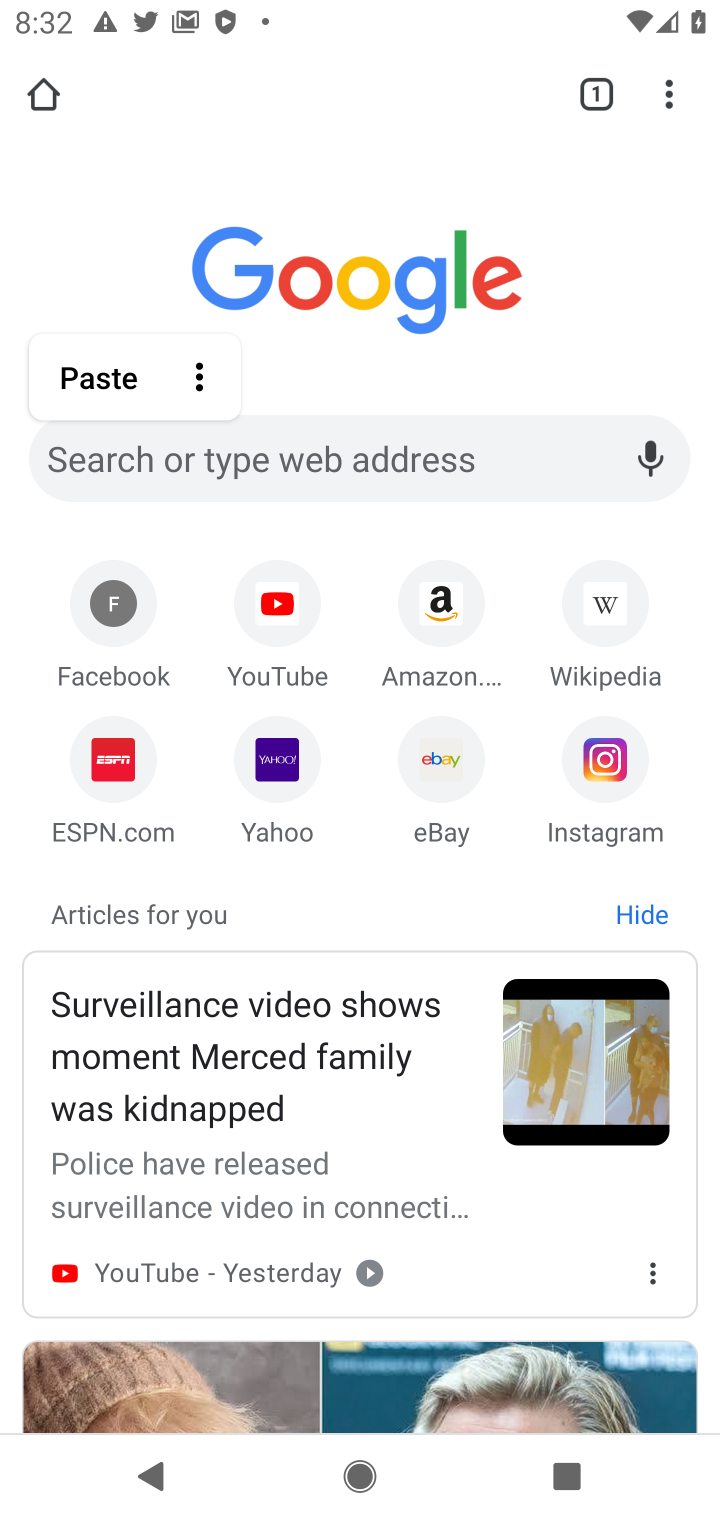
Step 30: type "capital of chile"
Your task to perform on an android device: Google the capital of Chile Image 31: 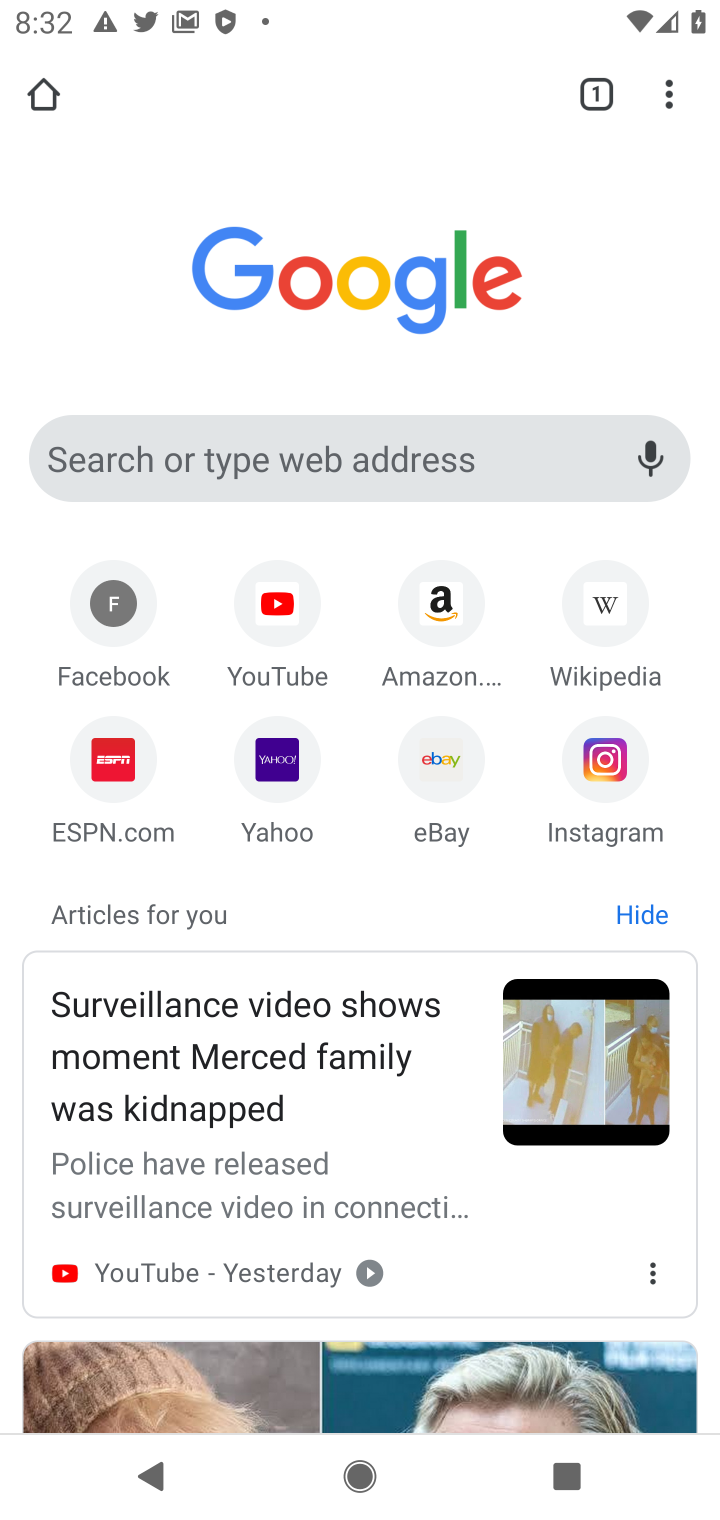
Step 31: type "capital of chile"
Your task to perform on an android device: Google the capital of Chile Image 32: 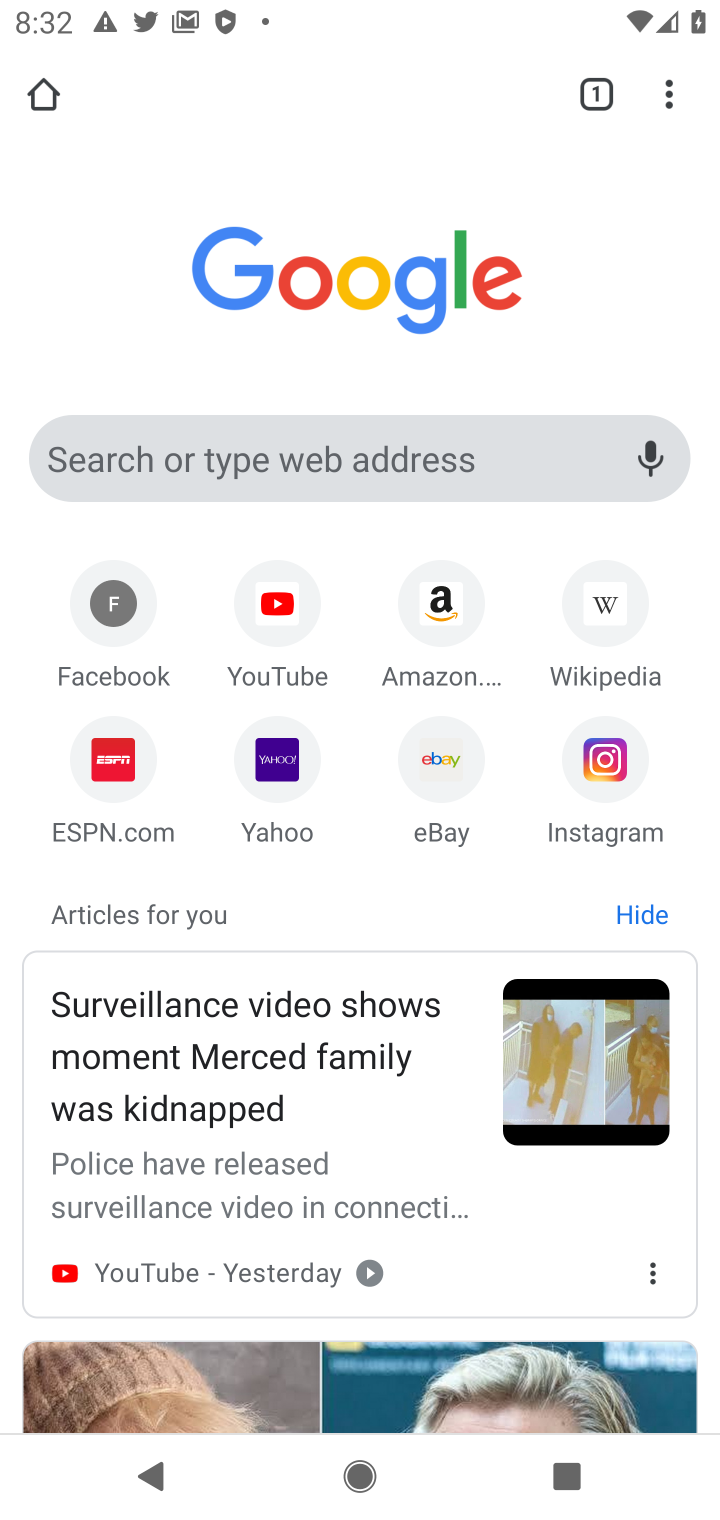
Step 32: type ""
Your task to perform on an android device: Google the capital of Chile Image 33: 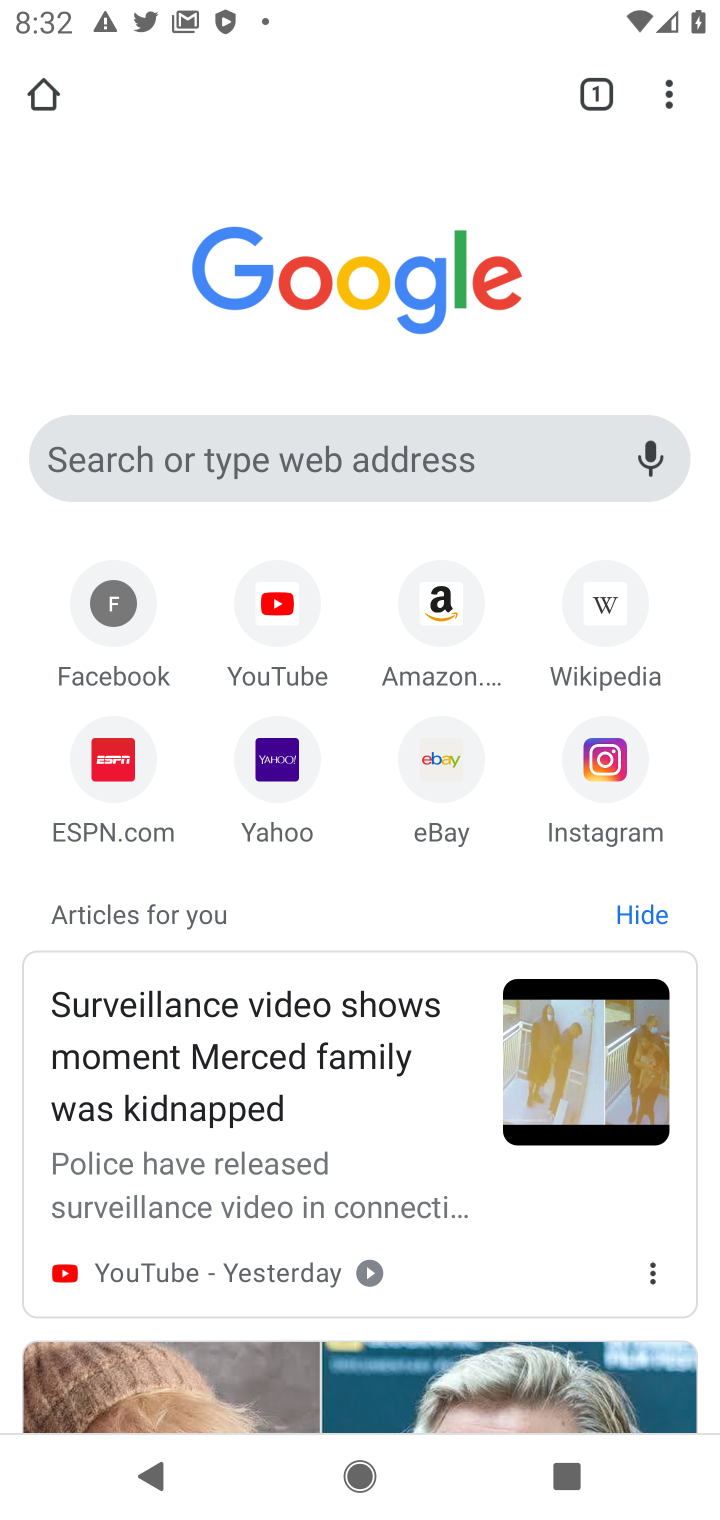
Step 33: type ""
Your task to perform on an android device: Google the capital of Chile Image 34: 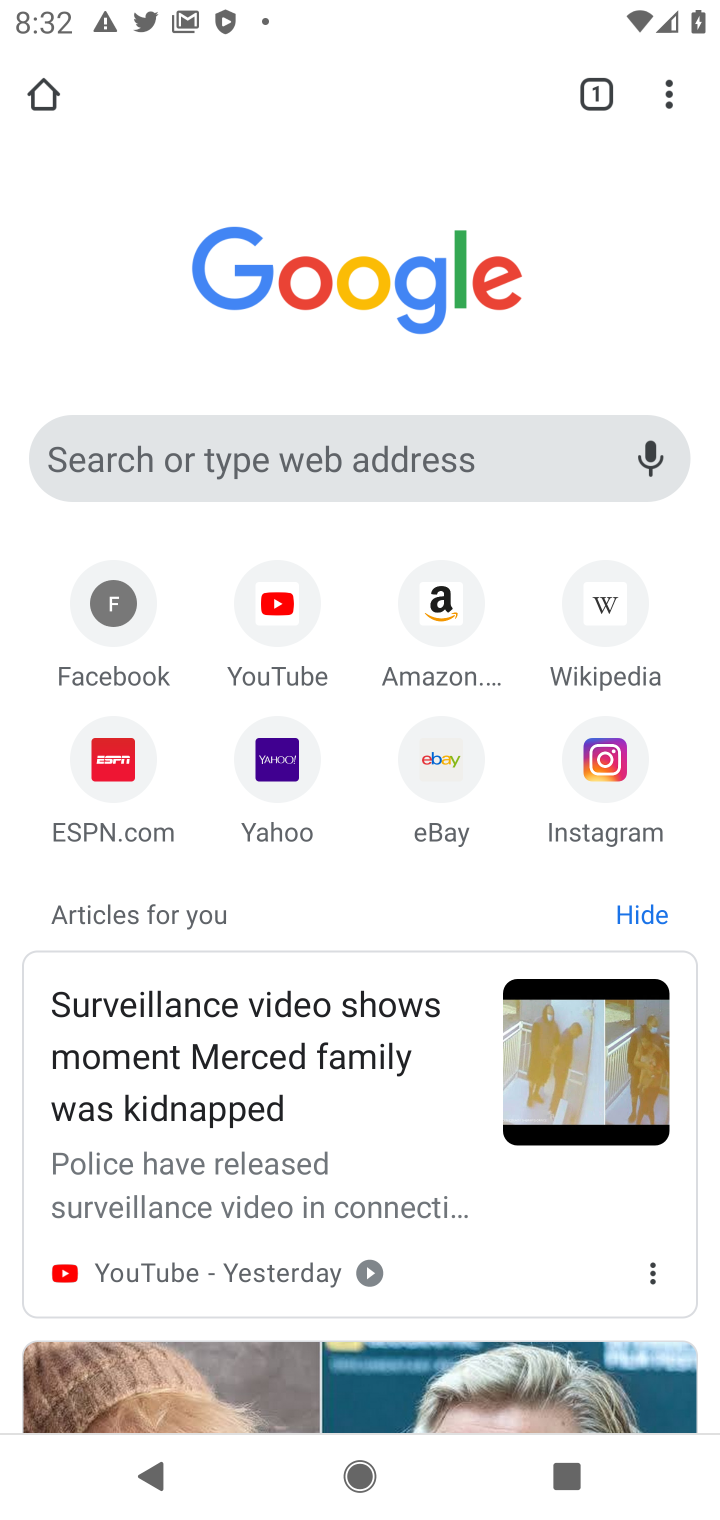
Step 34: click (264, 447)
Your task to perform on an android device: Google the capital of Chile Image 35: 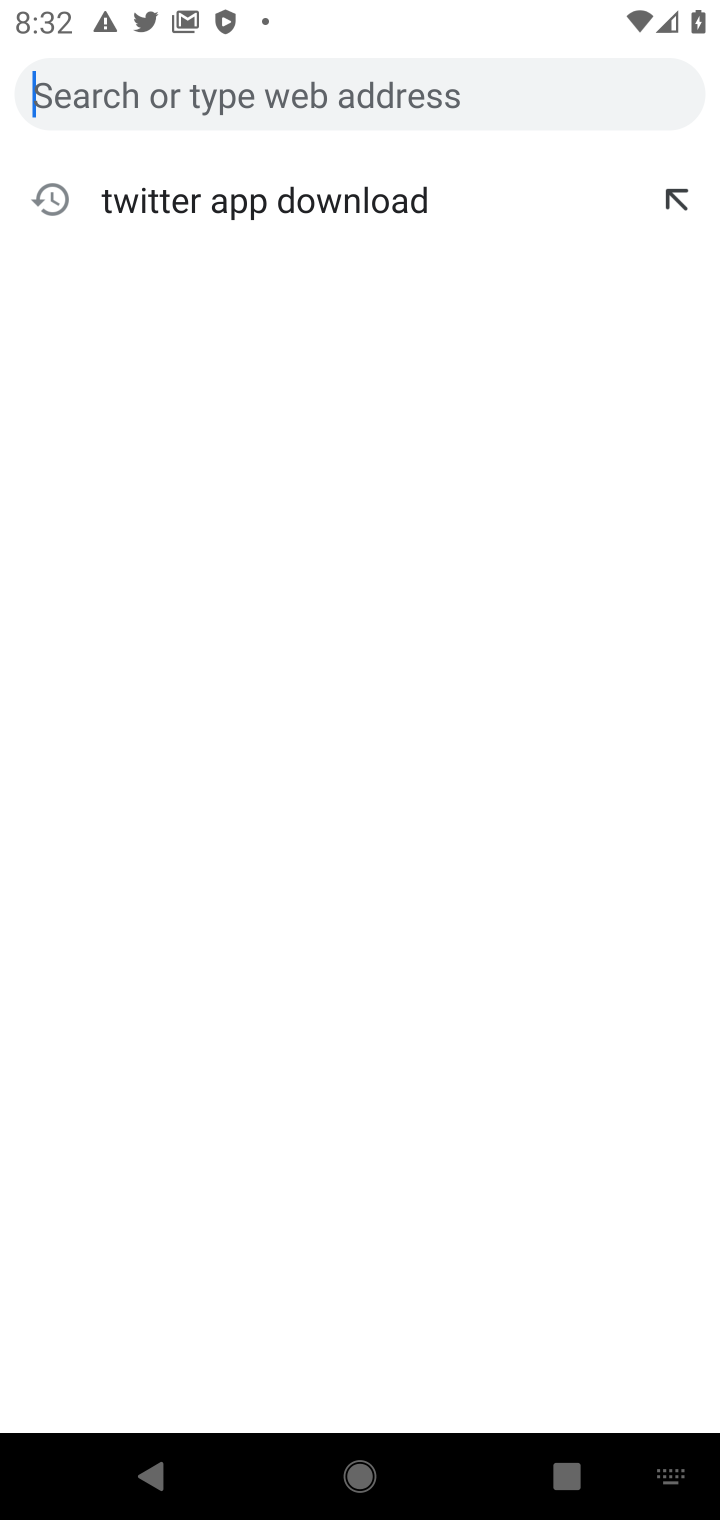
Step 35: type "capital of chile"
Your task to perform on an android device: Google the capital of Chile Image 36: 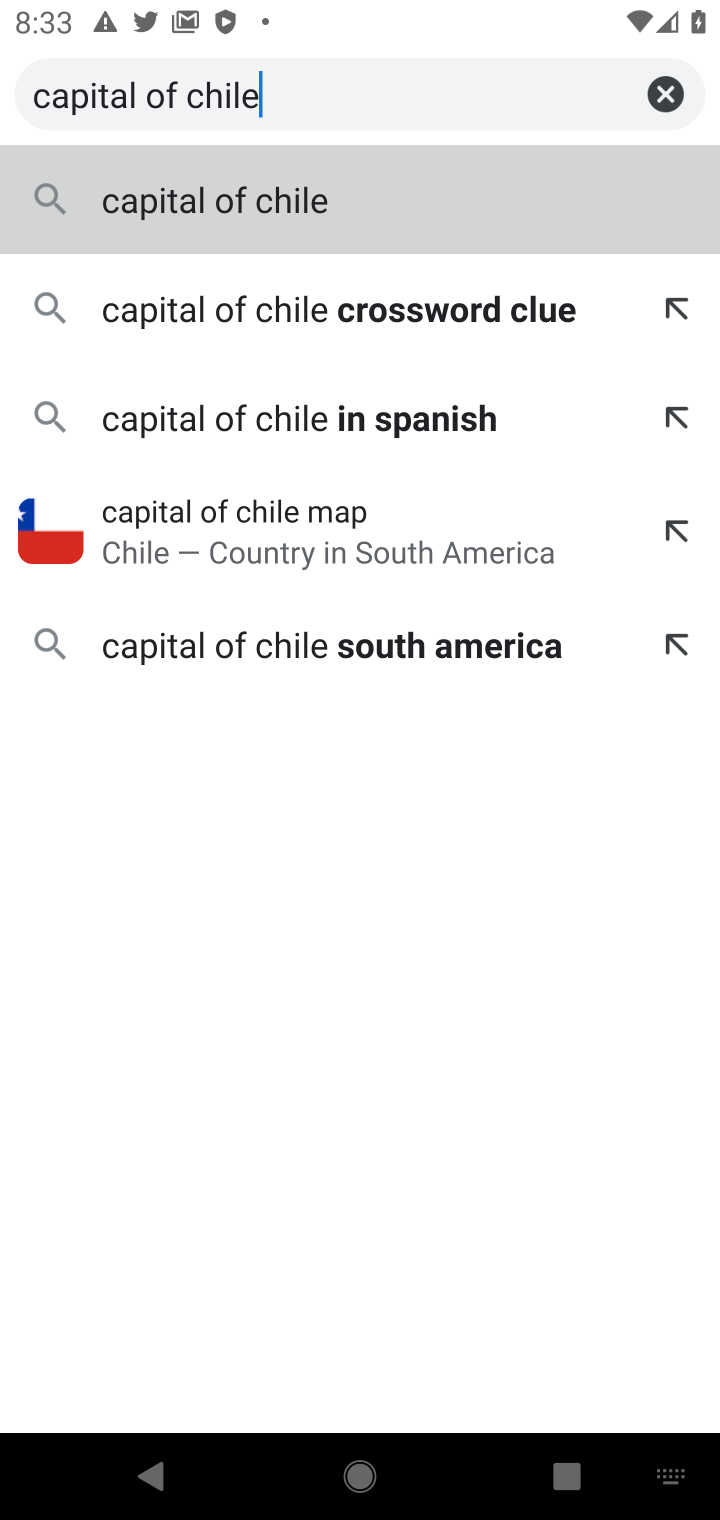
Step 36: click (192, 209)
Your task to perform on an android device: Google the capital of Chile Image 37: 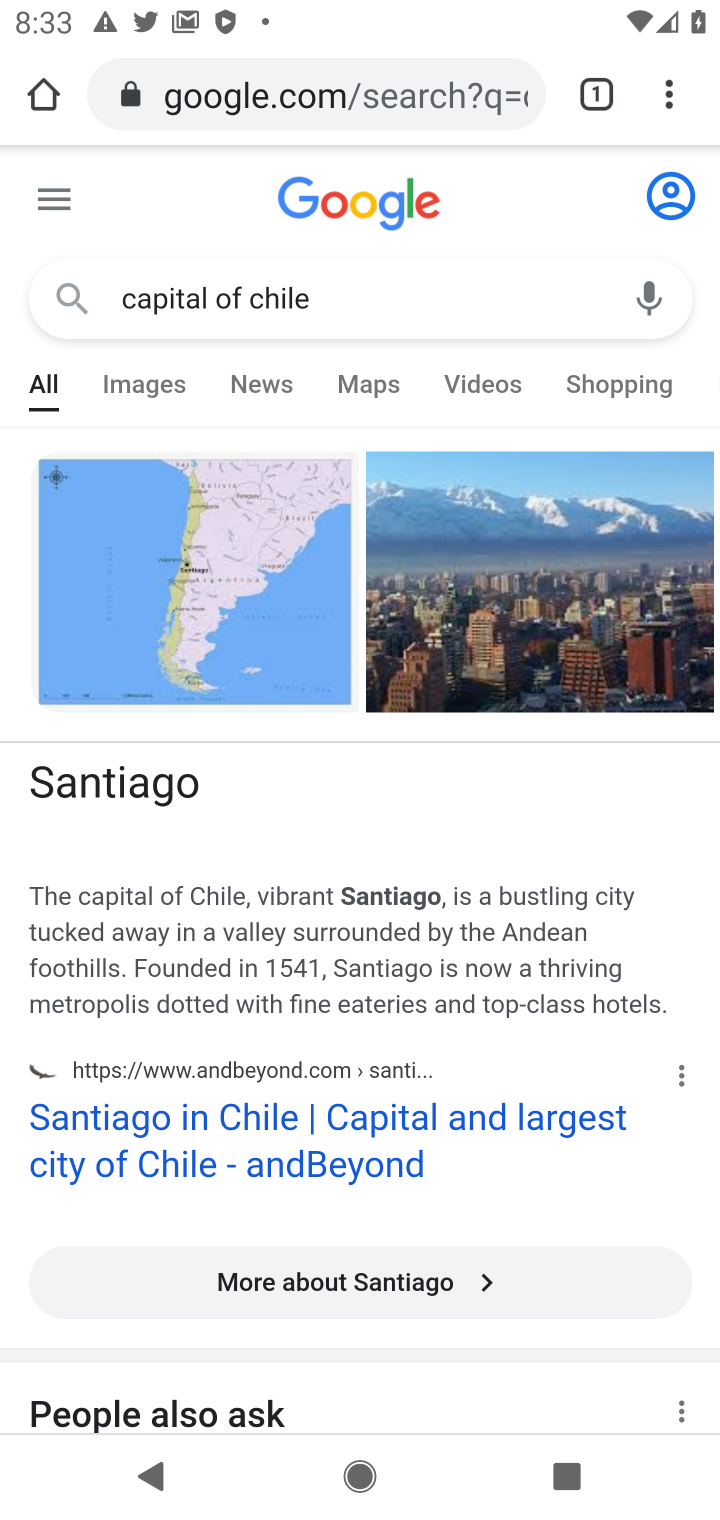
Step 37: task complete